Your task to perform on an android device: Open calendar and show me the fourth week of next month Image 0: 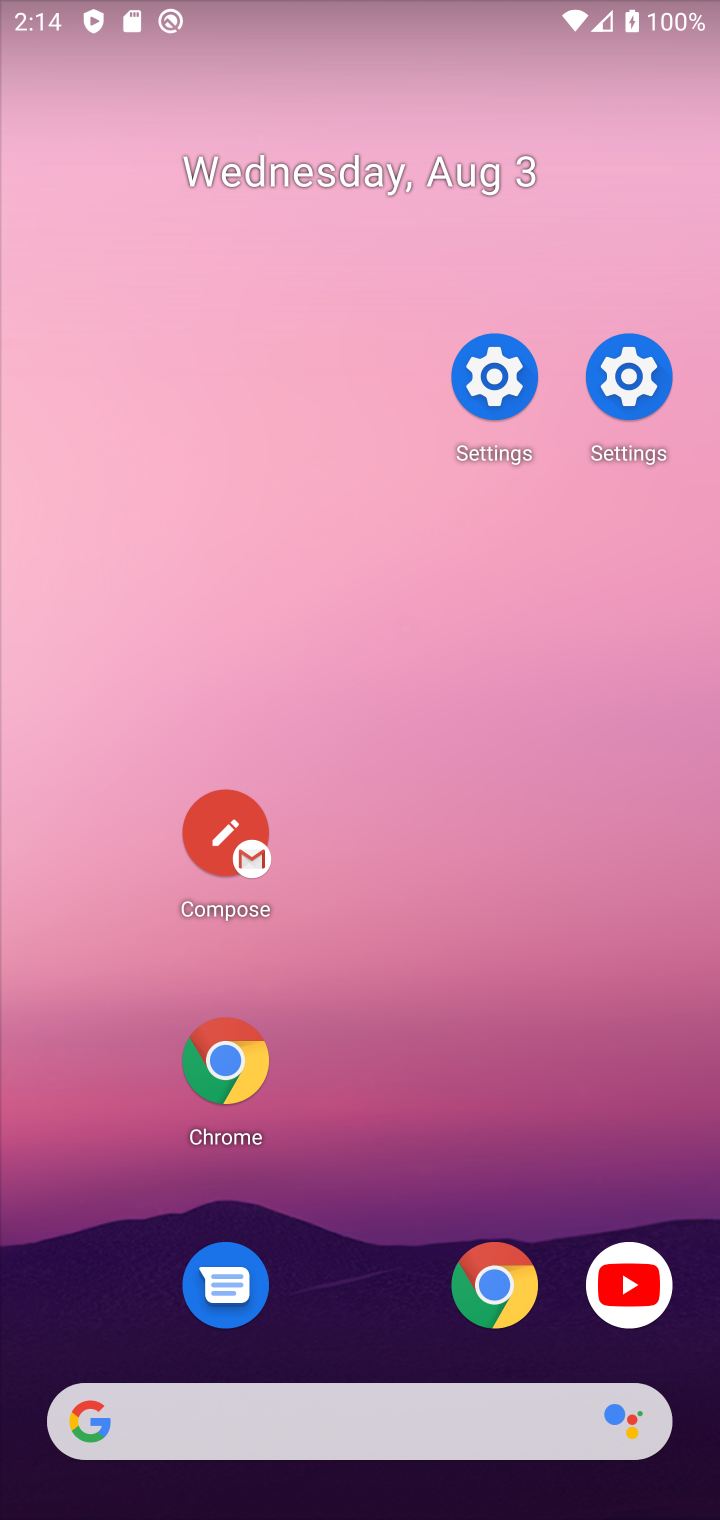
Step 0: click (328, 488)
Your task to perform on an android device: Open calendar and show me the fourth week of next month Image 1: 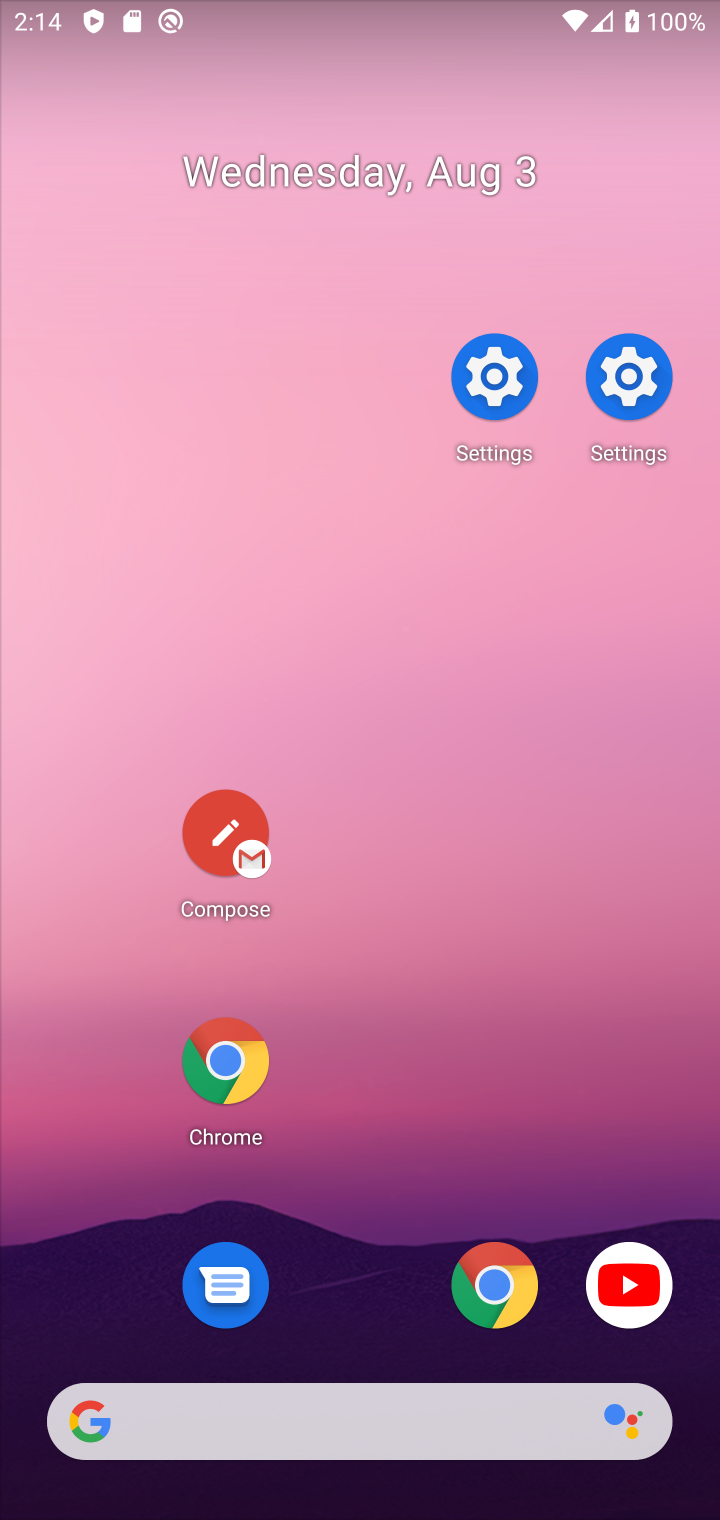
Step 1: click (309, 451)
Your task to perform on an android device: Open calendar and show me the fourth week of next month Image 2: 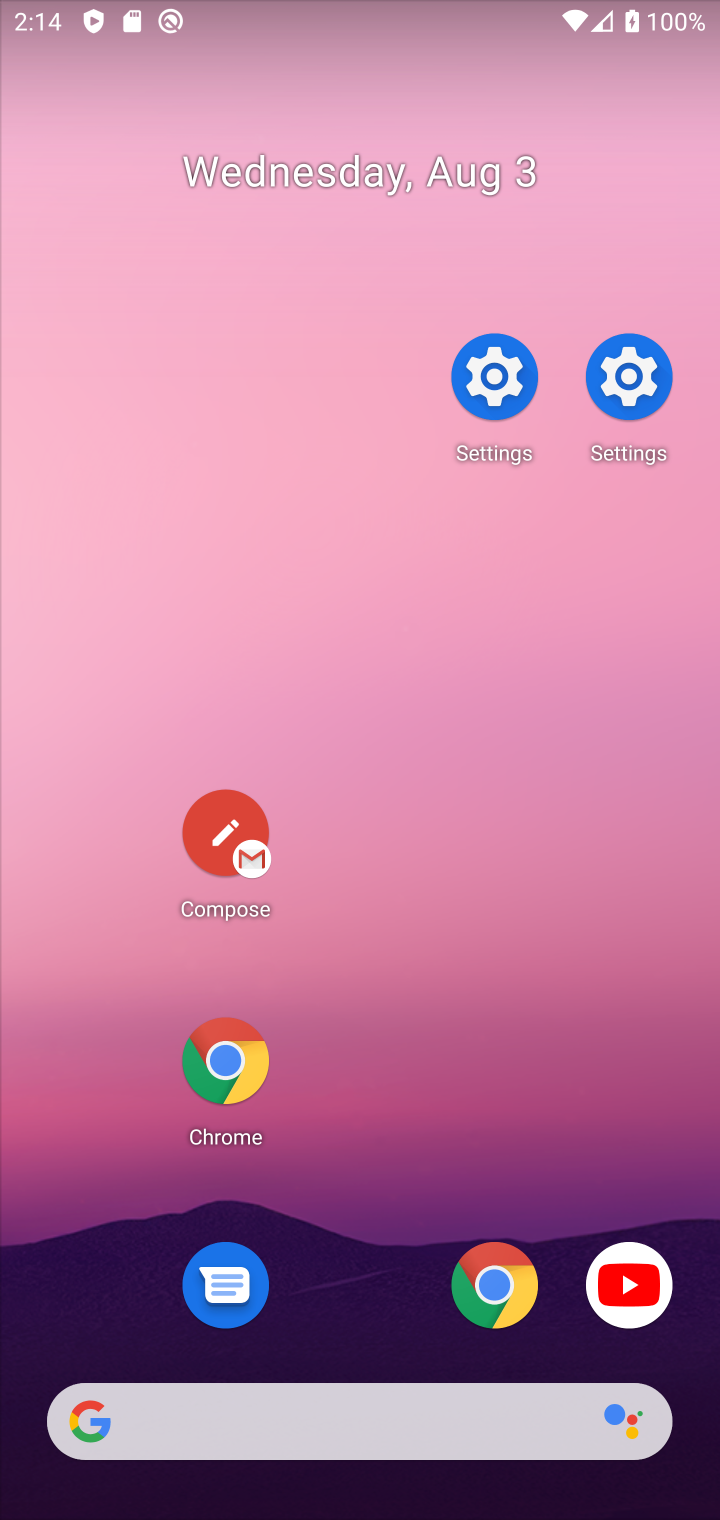
Step 2: drag from (406, 885) to (382, 39)
Your task to perform on an android device: Open calendar and show me the fourth week of next month Image 3: 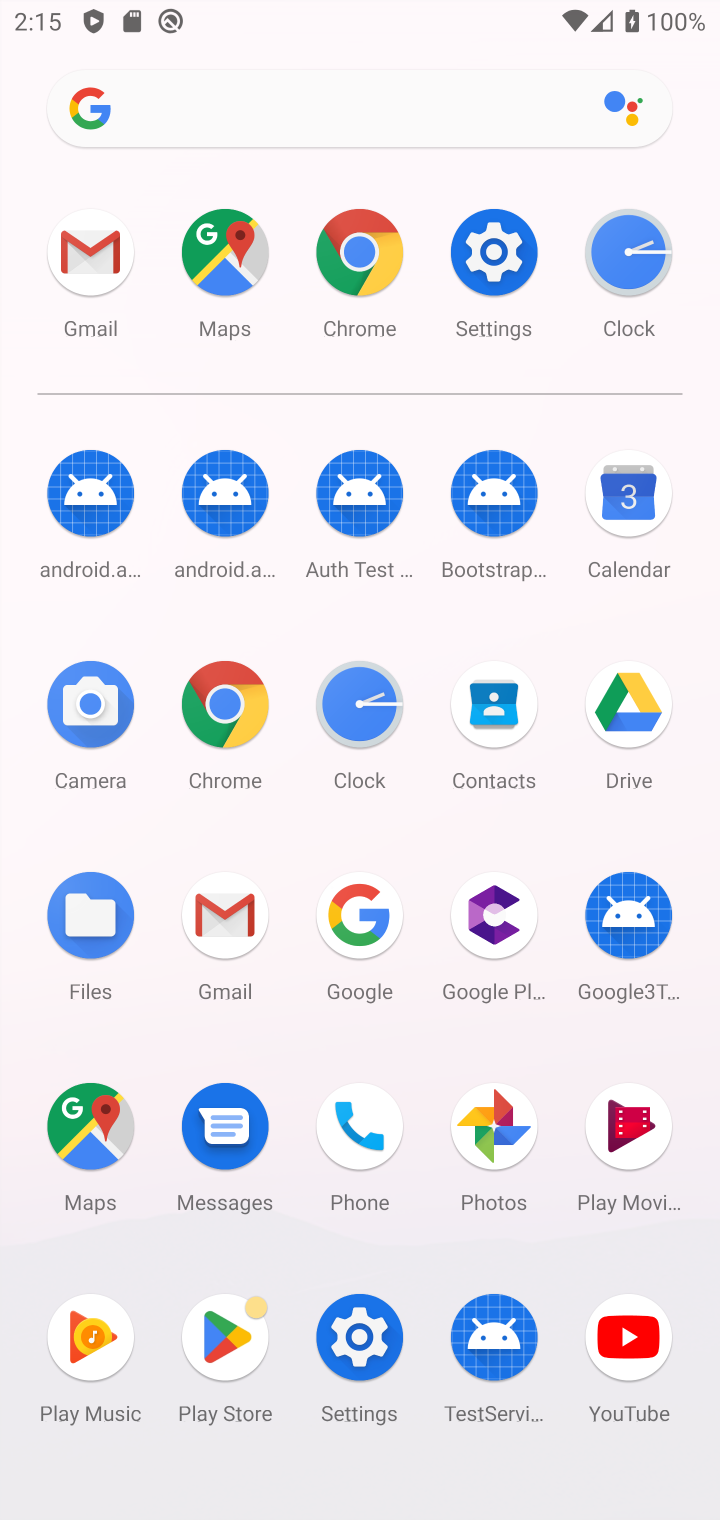
Step 3: click (639, 509)
Your task to perform on an android device: Open calendar and show me the fourth week of next month Image 4: 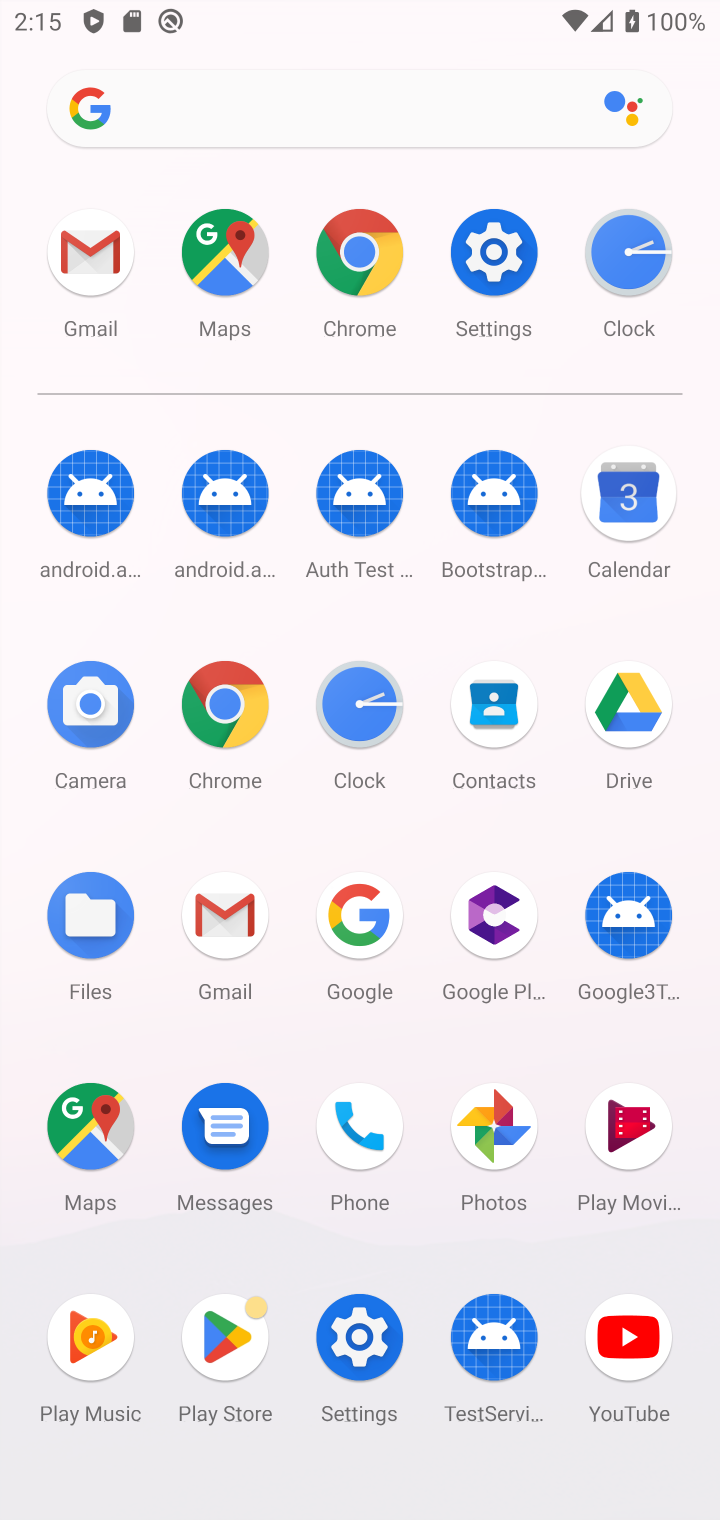
Step 4: click (627, 507)
Your task to perform on an android device: Open calendar and show me the fourth week of next month Image 5: 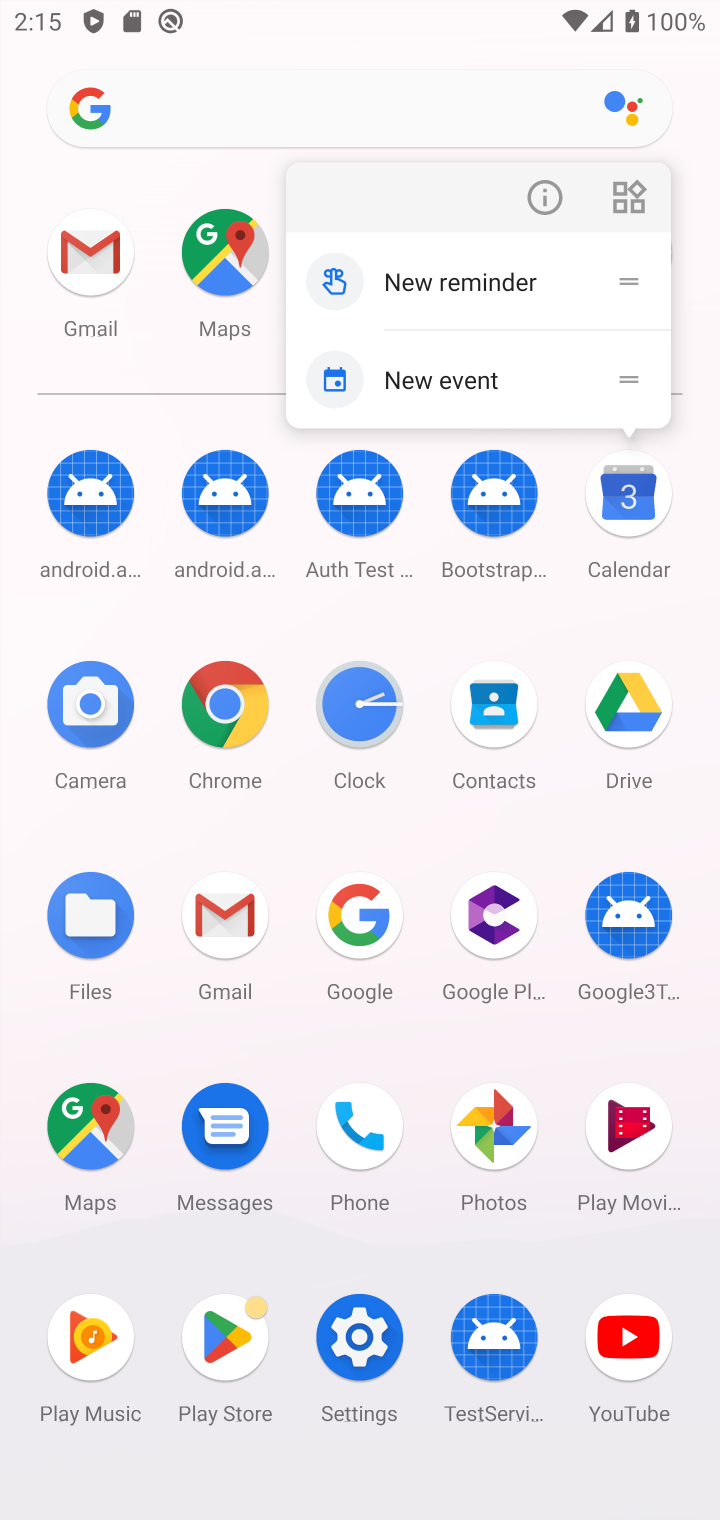
Step 5: click (625, 474)
Your task to perform on an android device: Open calendar and show me the fourth week of next month Image 6: 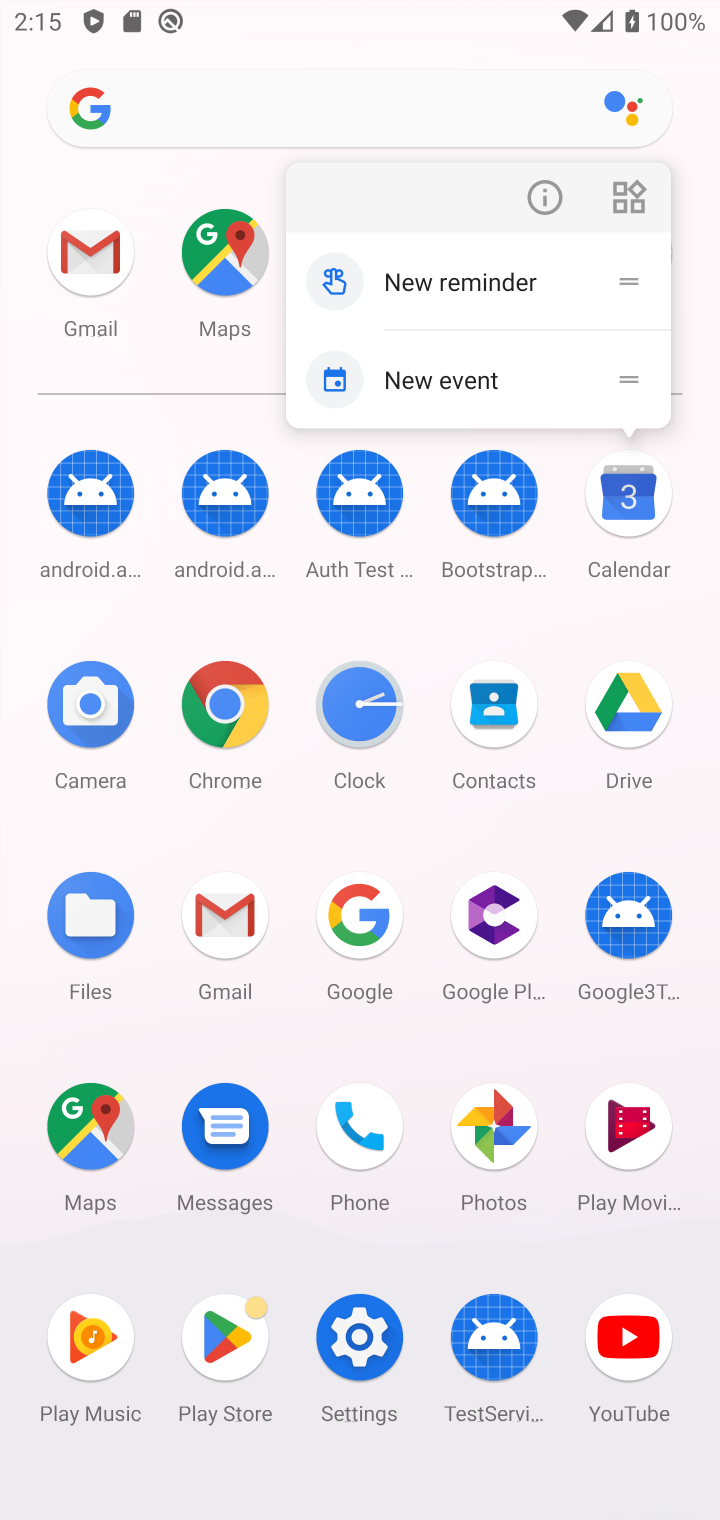
Step 6: click (619, 473)
Your task to perform on an android device: Open calendar and show me the fourth week of next month Image 7: 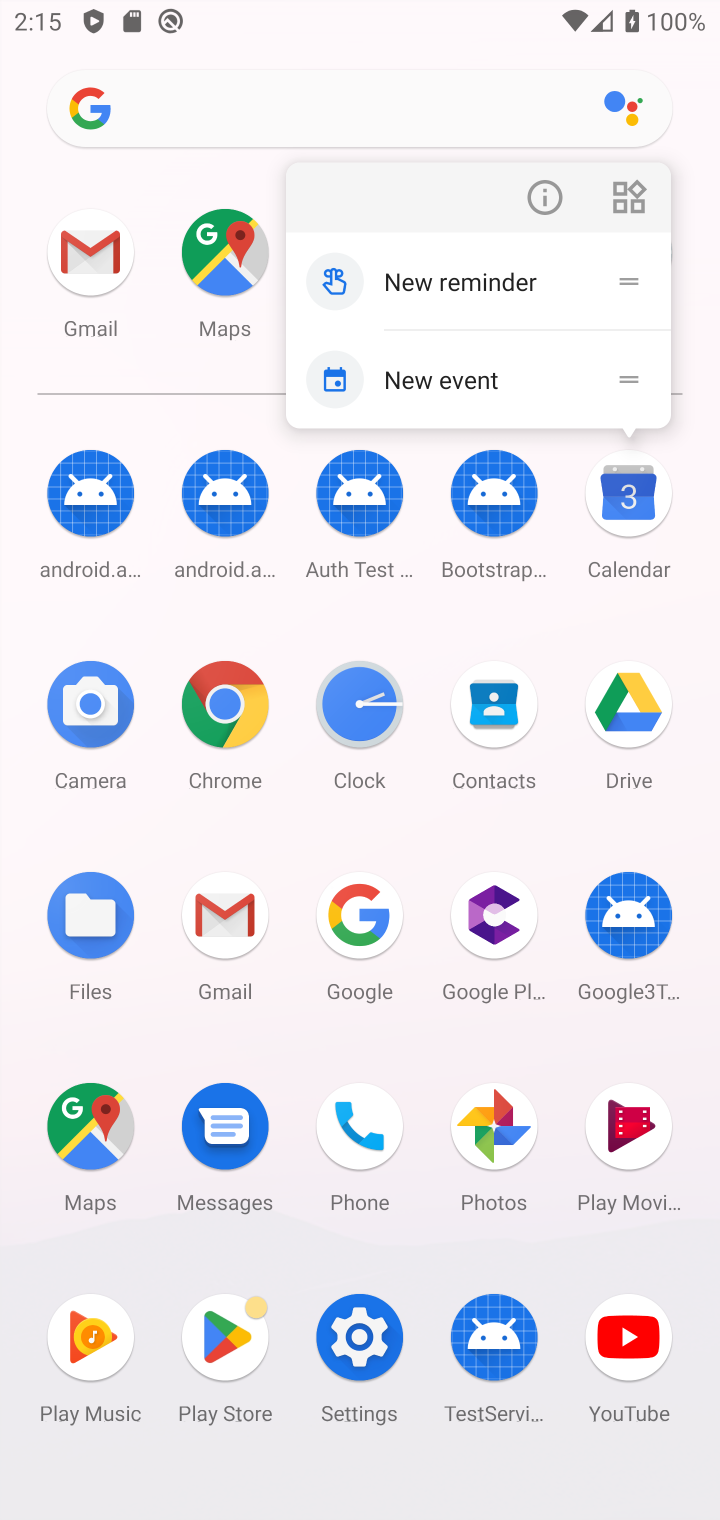
Step 7: click (639, 513)
Your task to perform on an android device: Open calendar and show me the fourth week of next month Image 8: 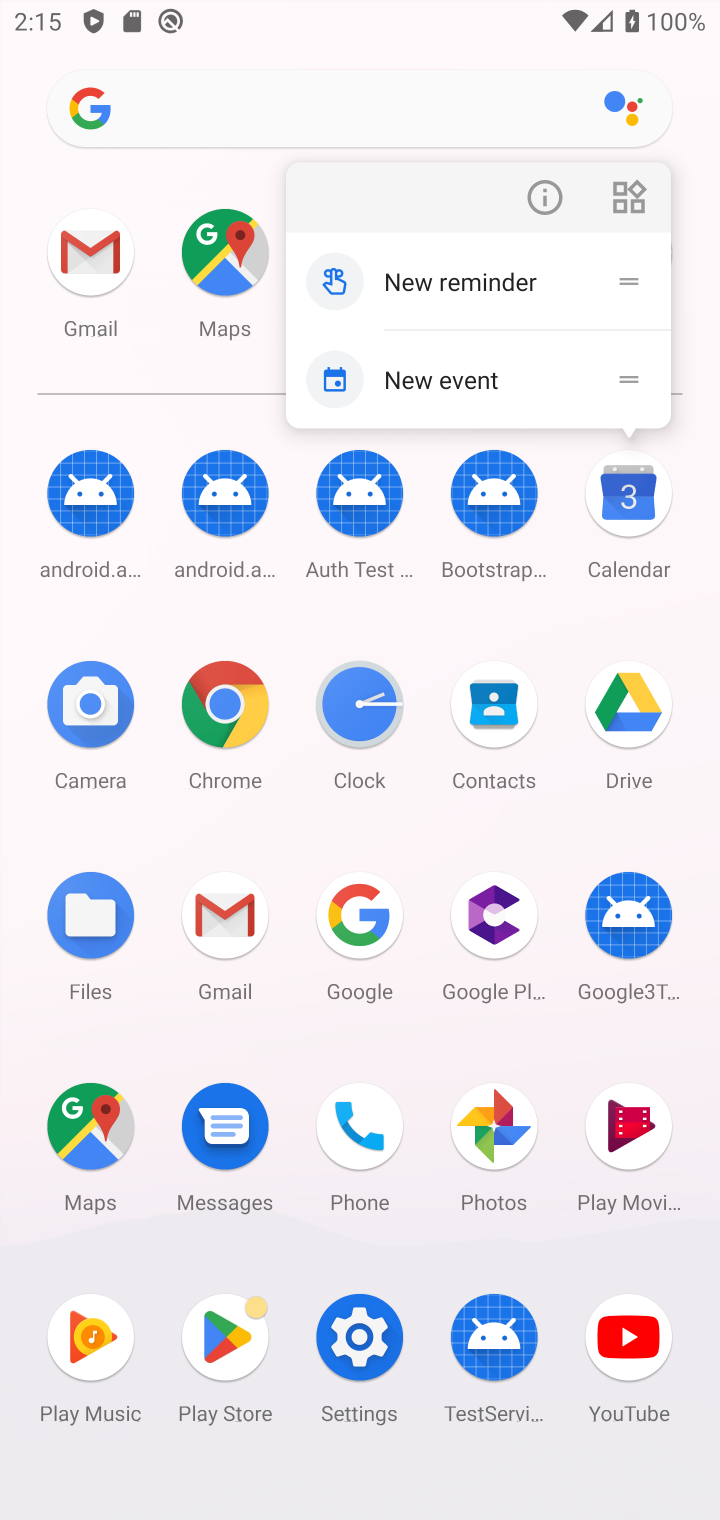
Step 8: click (636, 510)
Your task to perform on an android device: Open calendar and show me the fourth week of next month Image 9: 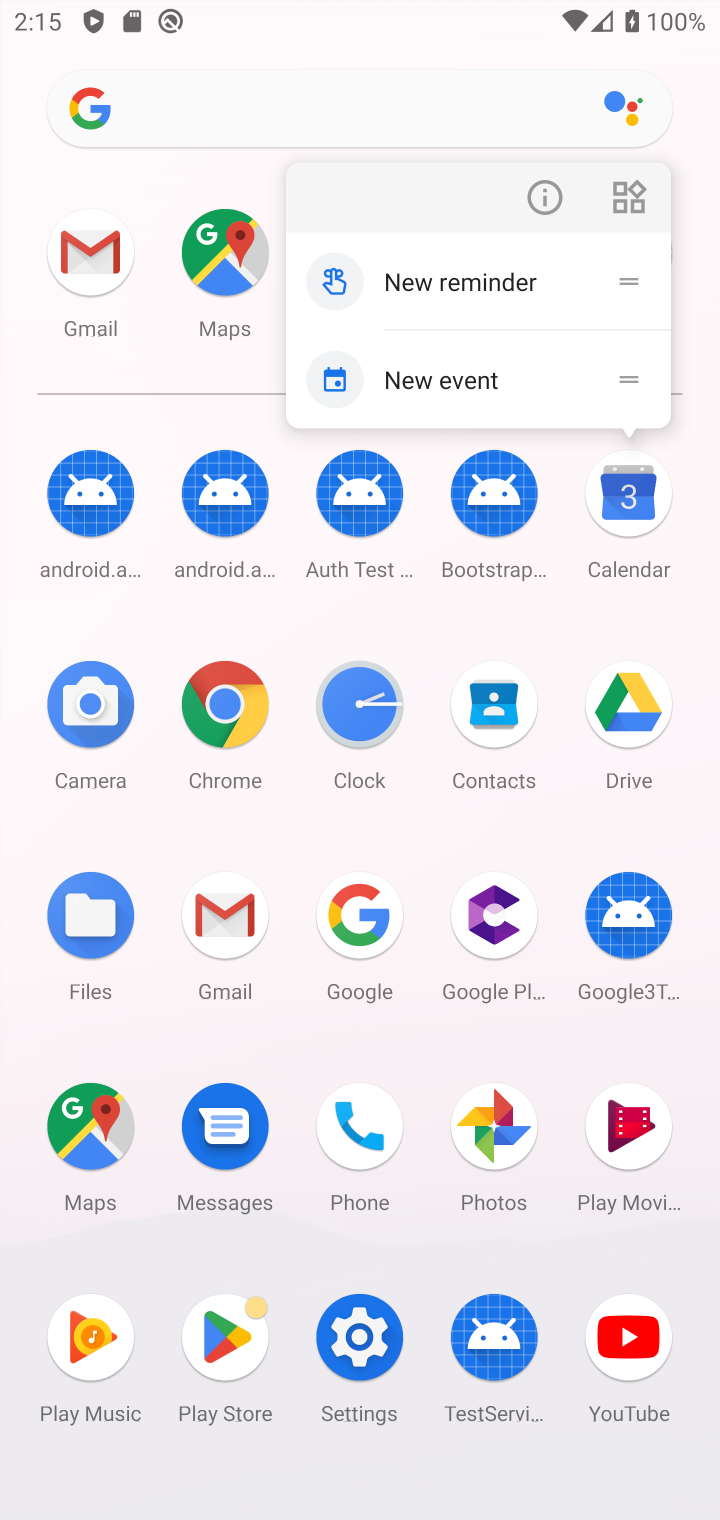
Step 9: click (642, 506)
Your task to perform on an android device: Open calendar and show me the fourth week of next month Image 10: 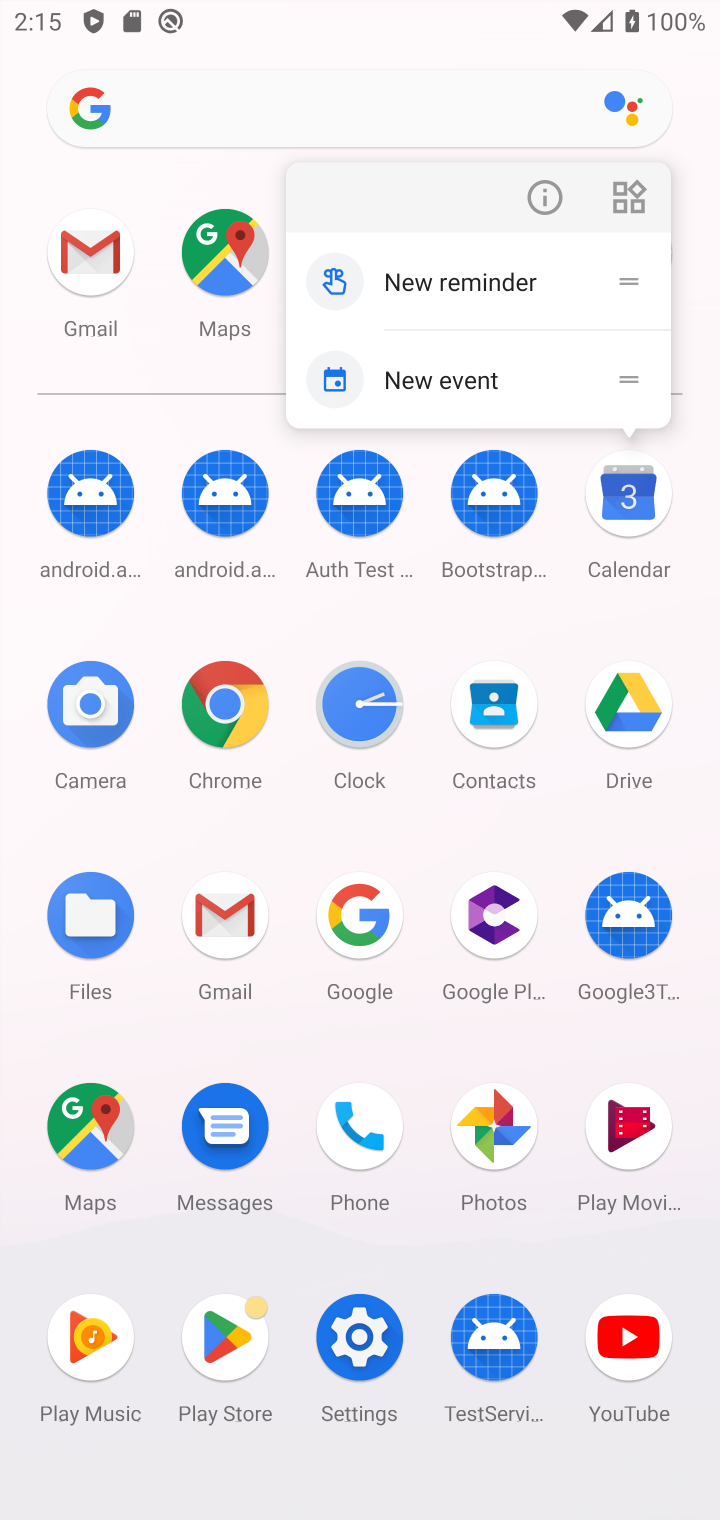
Step 10: click (630, 488)
Your task to perform on an android device: Open calendar and show me the fourth week of next month Image 11: 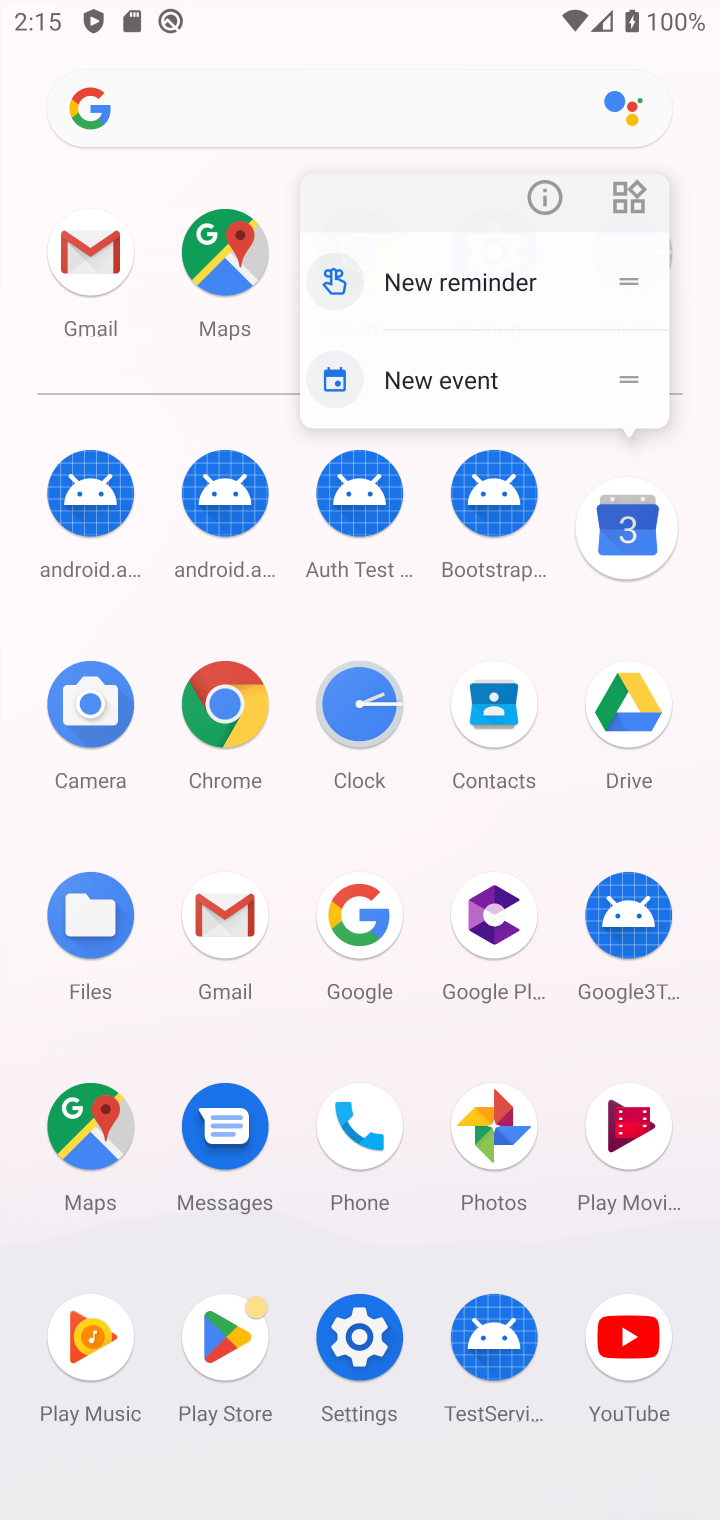
Step 11: click (491, 379)
Your task to perform on an android device: Open calendar and show me the fourth week of next month Image 12: 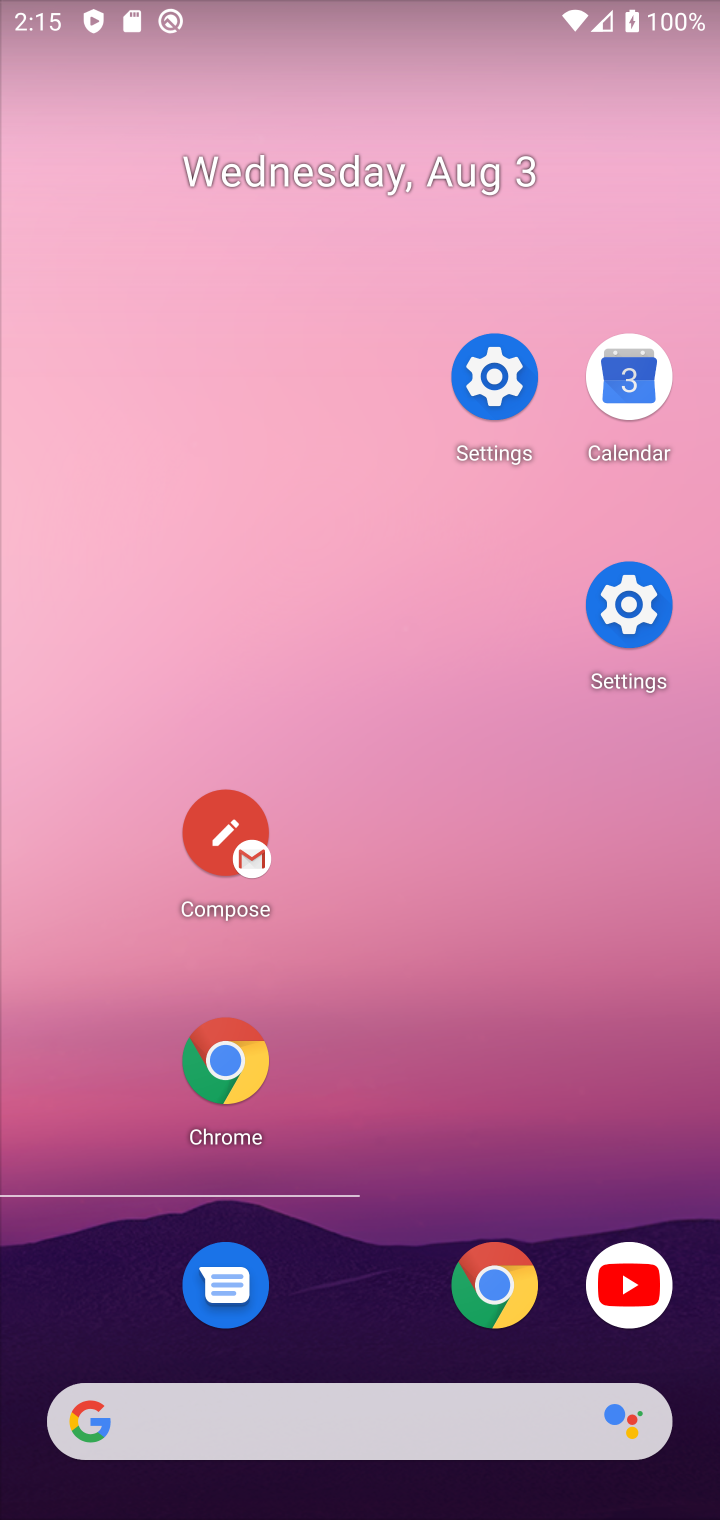
Step 12: click (618, 405)
Your task to perform on an android device: Open calendar and show me the fourth week of next month Image 13: 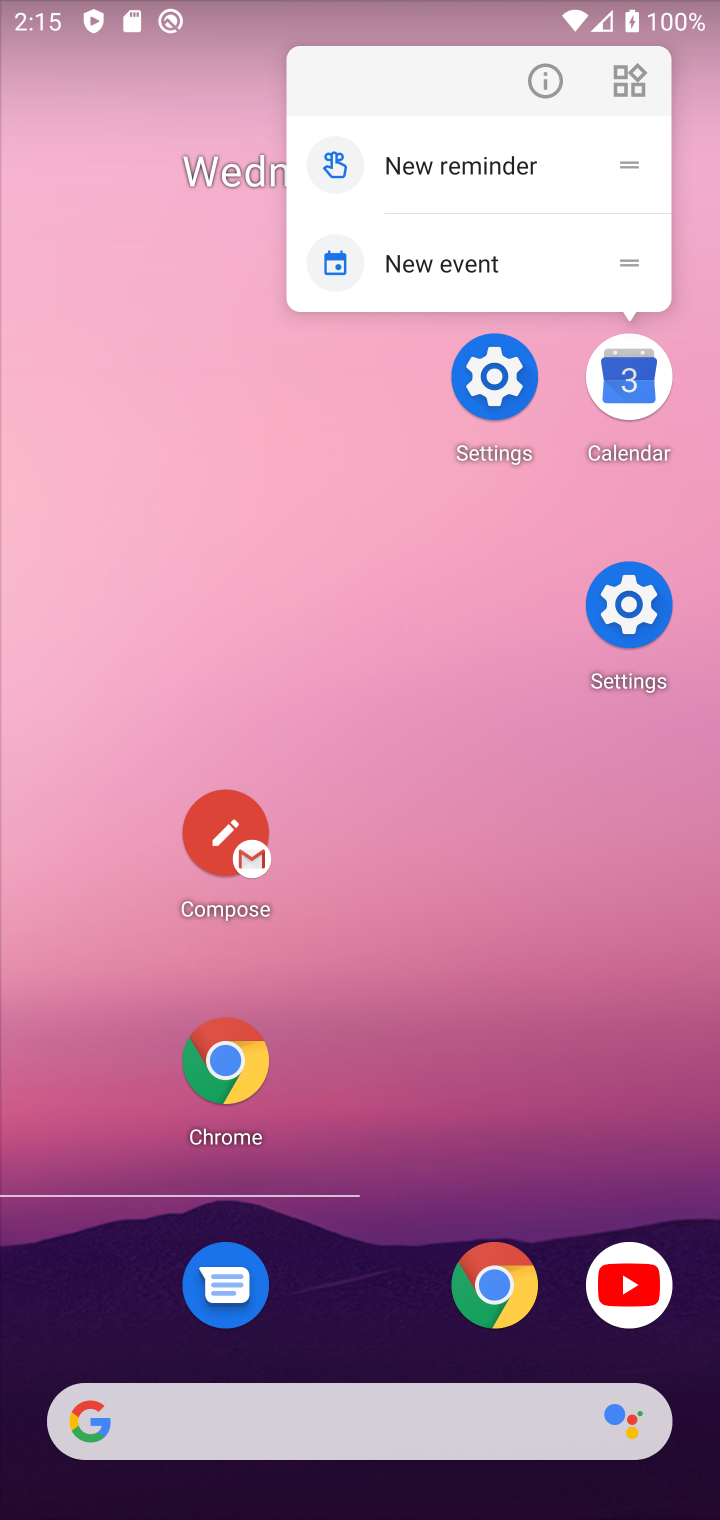
Step 13: click (442, 272)
Your task to perform on an android device: Open calendar and show me the fourth week of next month Image 14: 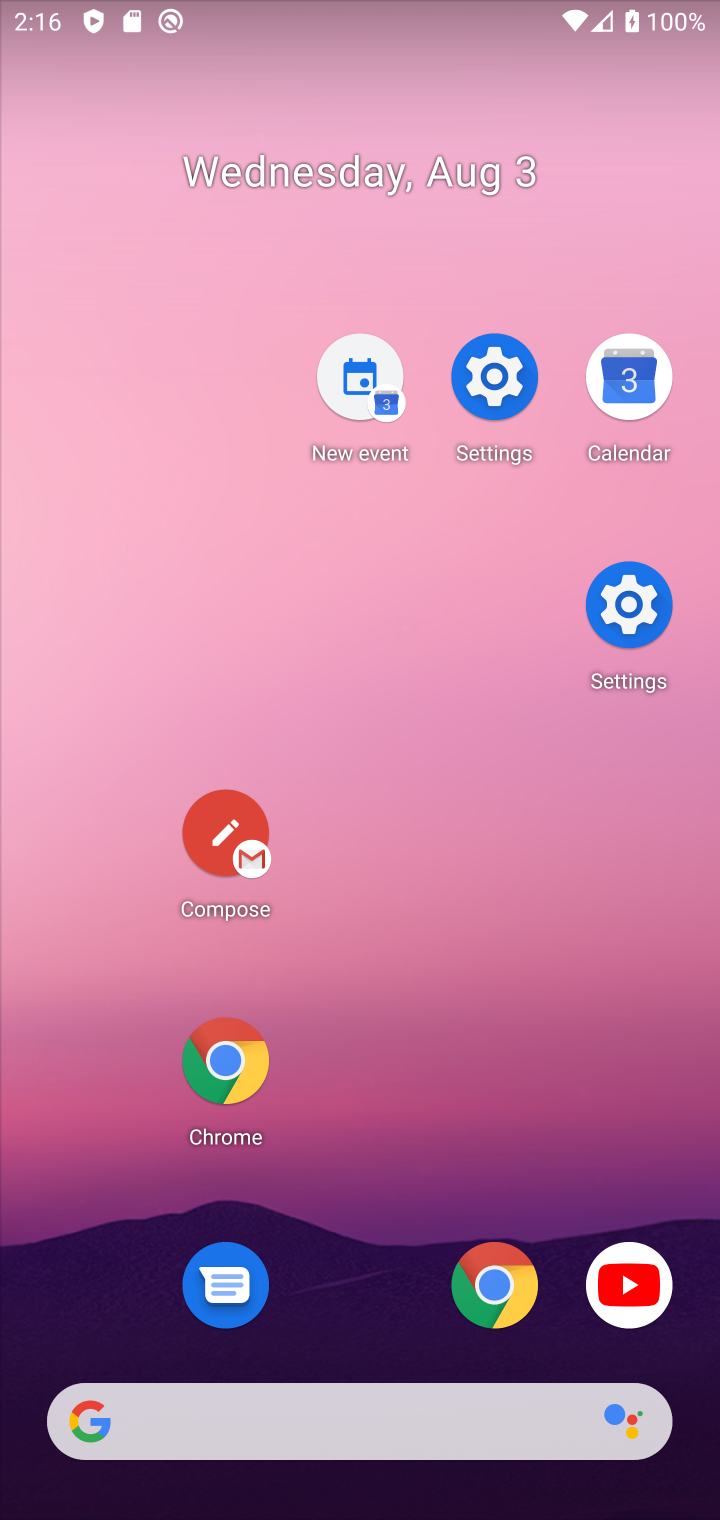
Step 14: click (650, 371)
Your task to perform on an android device: Open calendar and show me the fourth week of next month Image 15: 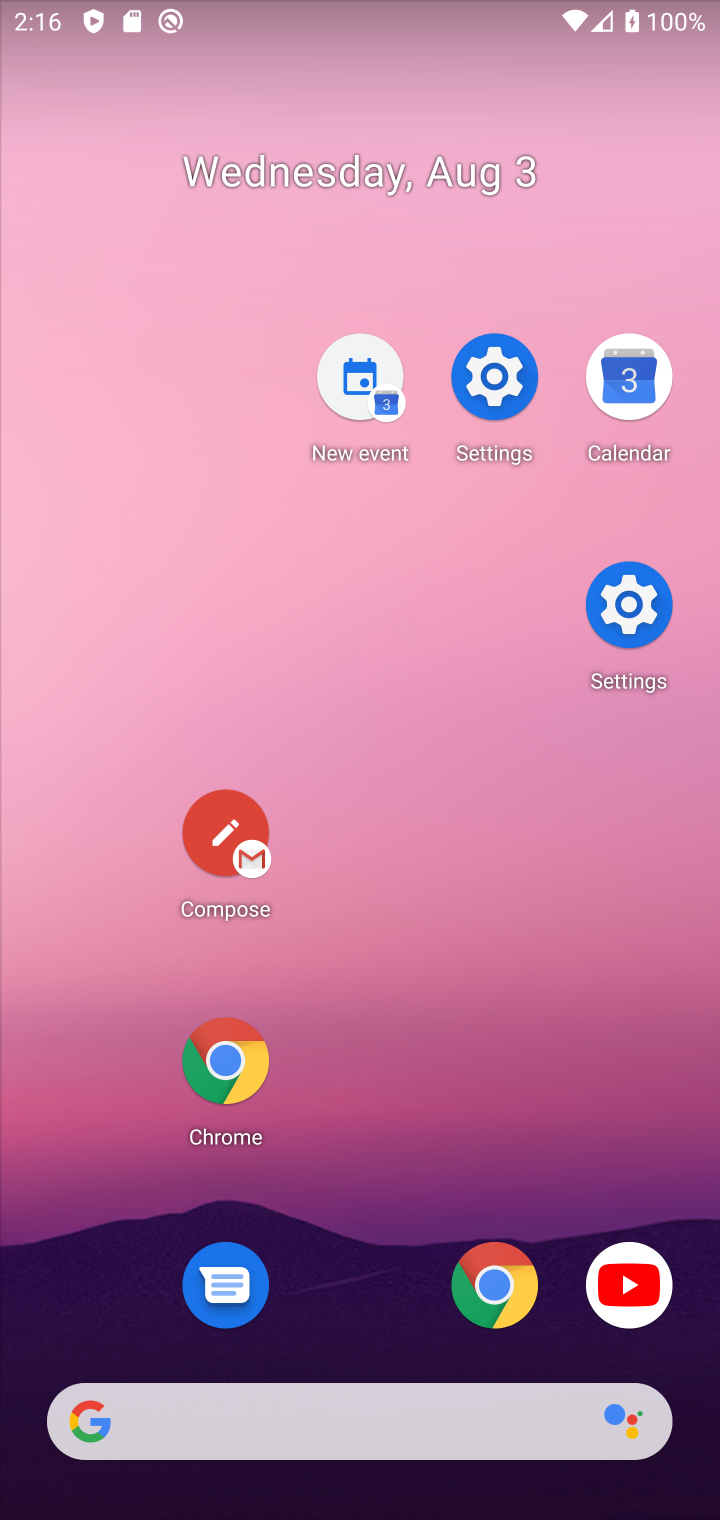
Step 15: click (630, 367)
Your task to perform on an android device: Open calendar and show me the fourth week of next month Image 16: 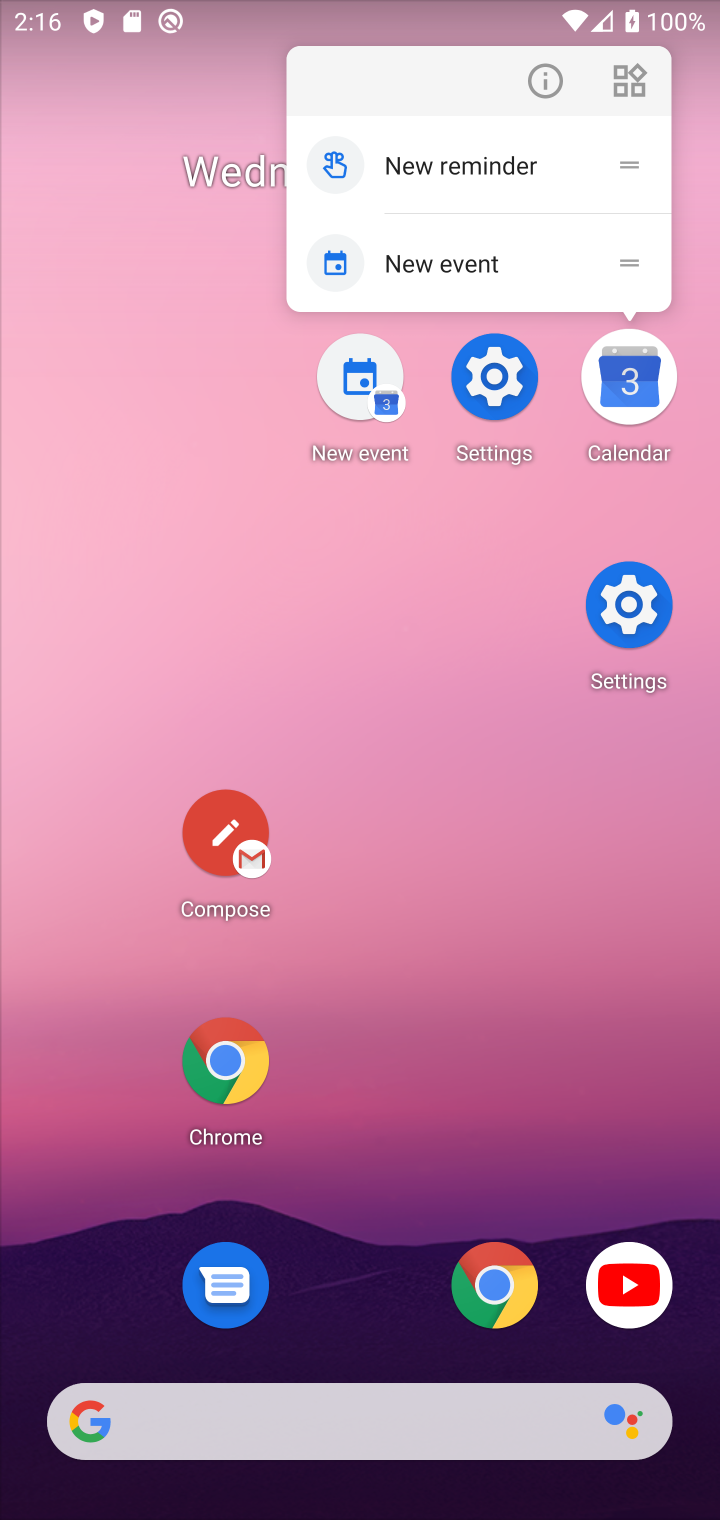
Step 16: click (630, 367)
Your task to perform on an android device: Open calendar and show me the fourth week of next month Image 17: 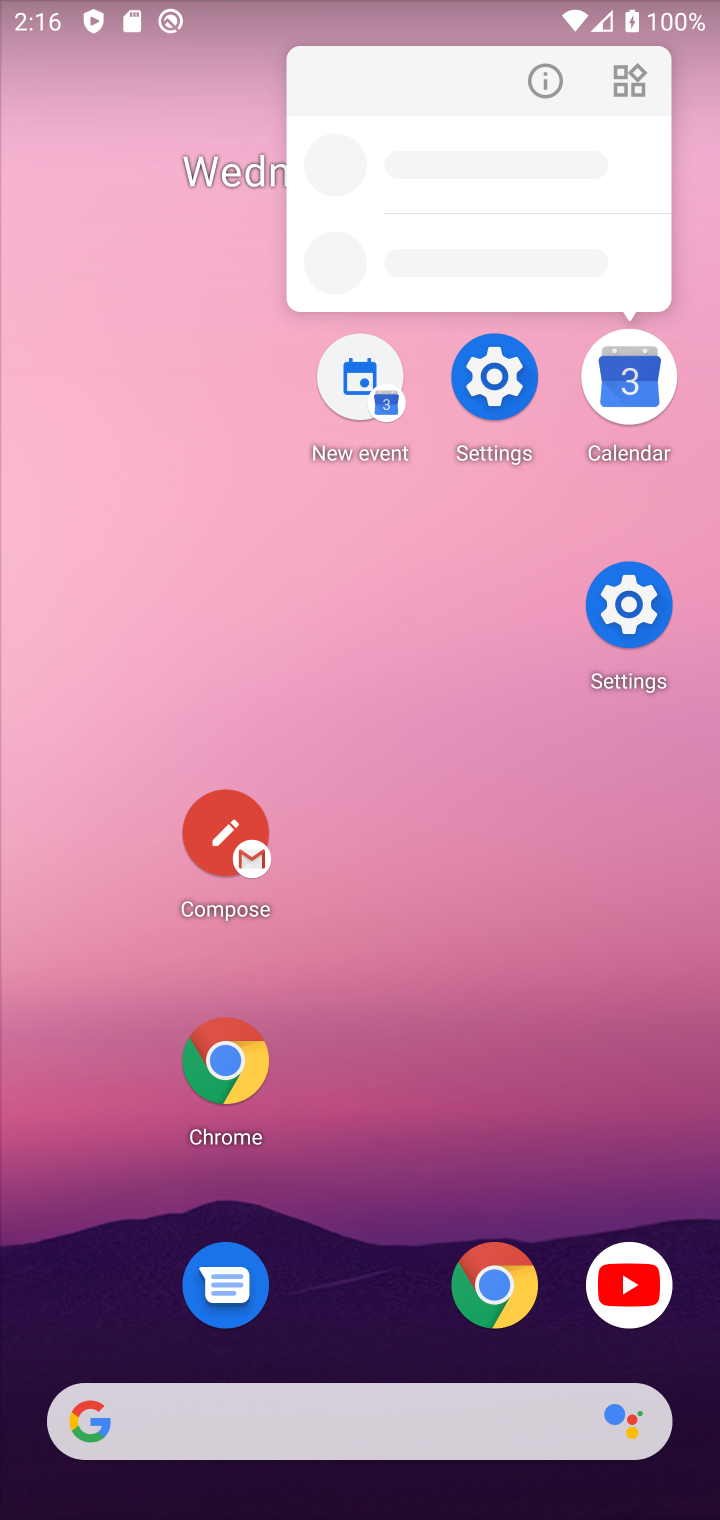
Step 17: click (458, 279)
Your task to perform on an android device: Open calendar and show me the fourth week of next month Image 18: 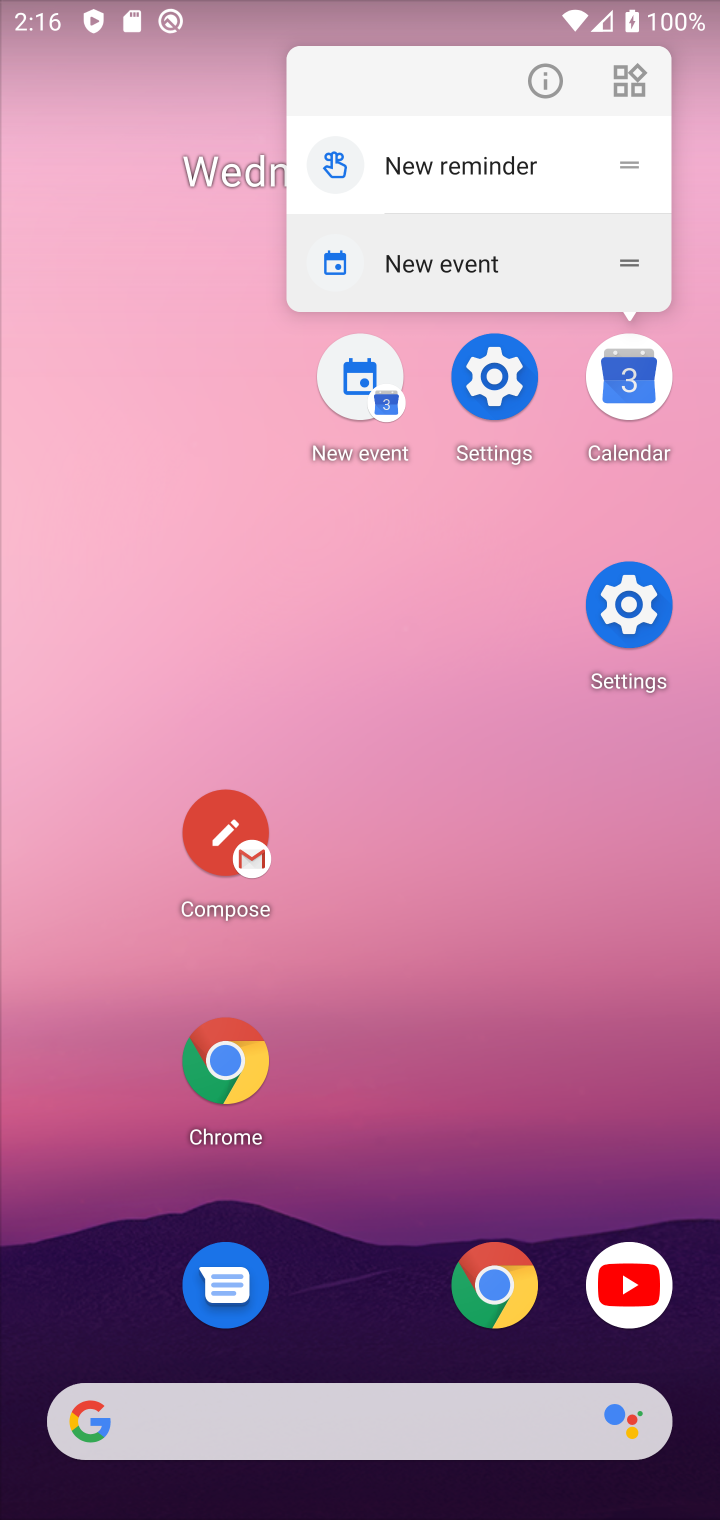
Step 18: click (425, 281)
Your task to perform on an android device: Open calendar and show me the fourth week of next month Image 19: 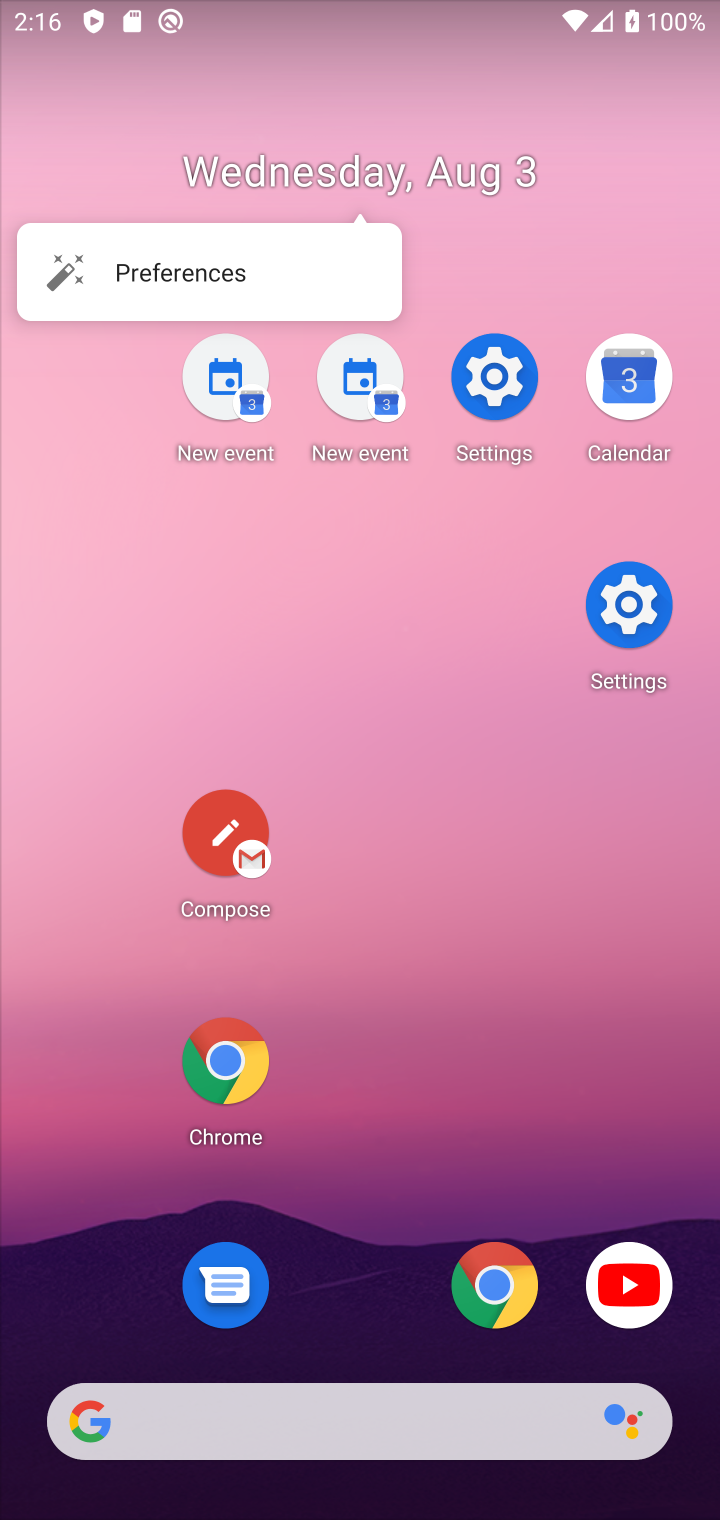
Step 19: drag from (393, 723) to (262, 111)
Your task to perform on an android device: Open calendar and show me the fourth week of next month Image 20: 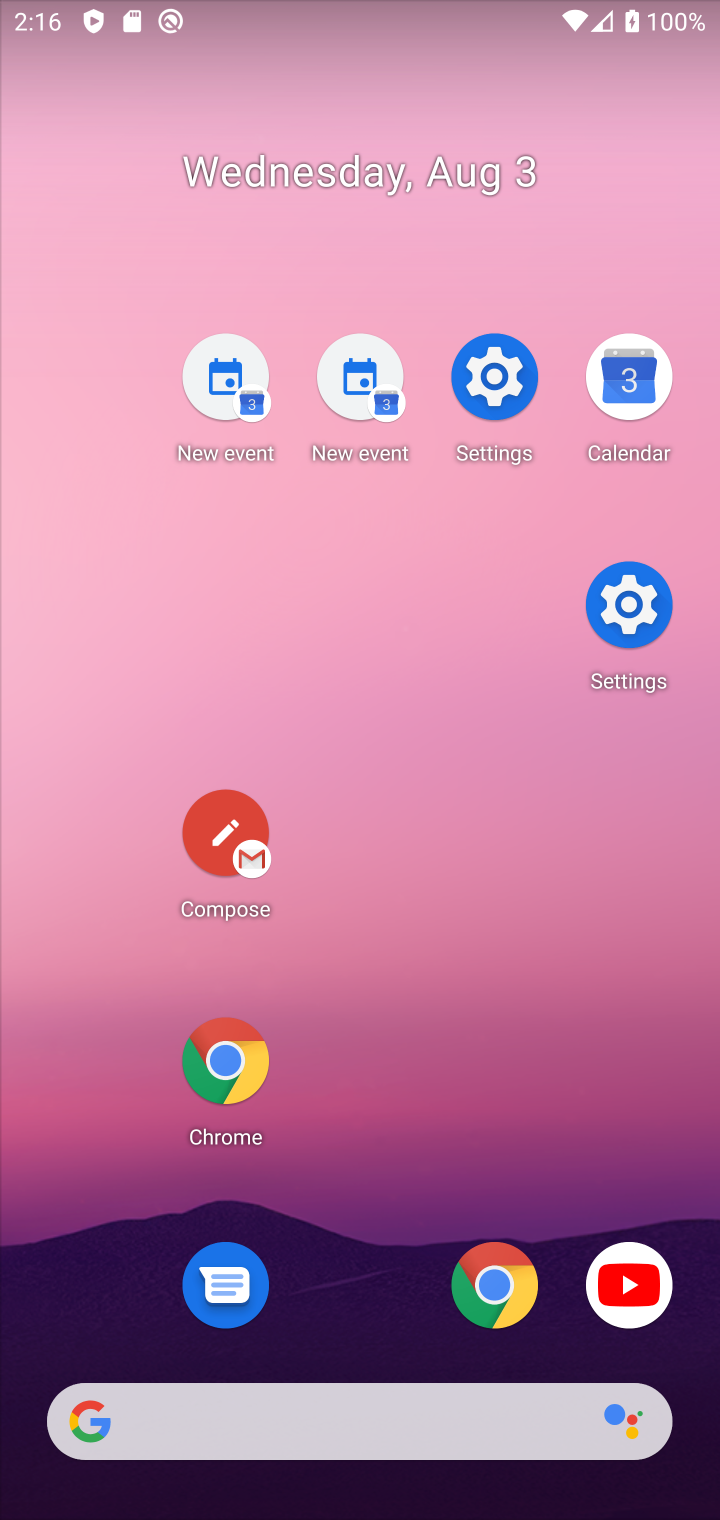
Step 20: drag from (429, 918) to (303, 261)
Your task to perform on an android device: Open calendar and show me the fourth week of next month Image 21: 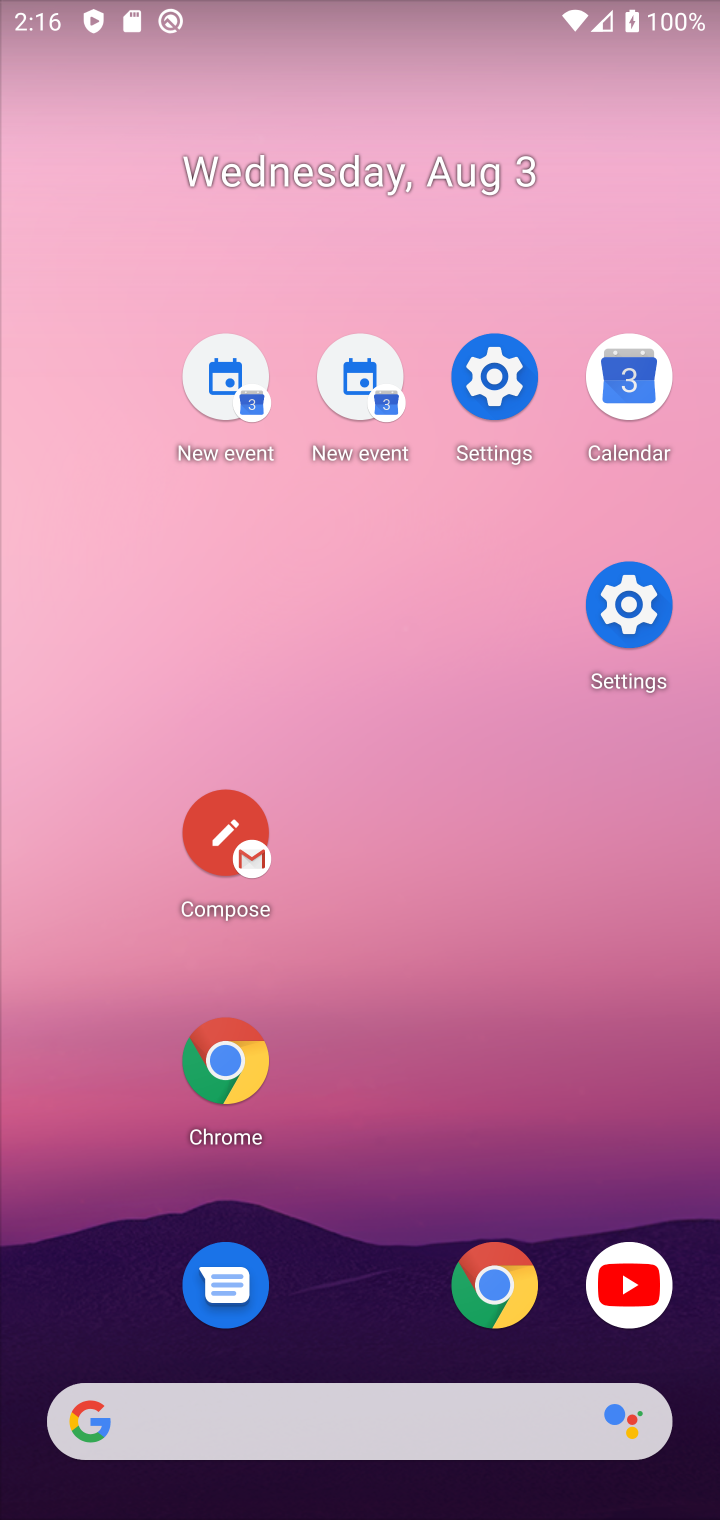
Step 21: drag from (574, 304) to (622, 401)
Your task to perform on an android device: Open calendar and show me the fourth week of next month Image 22: 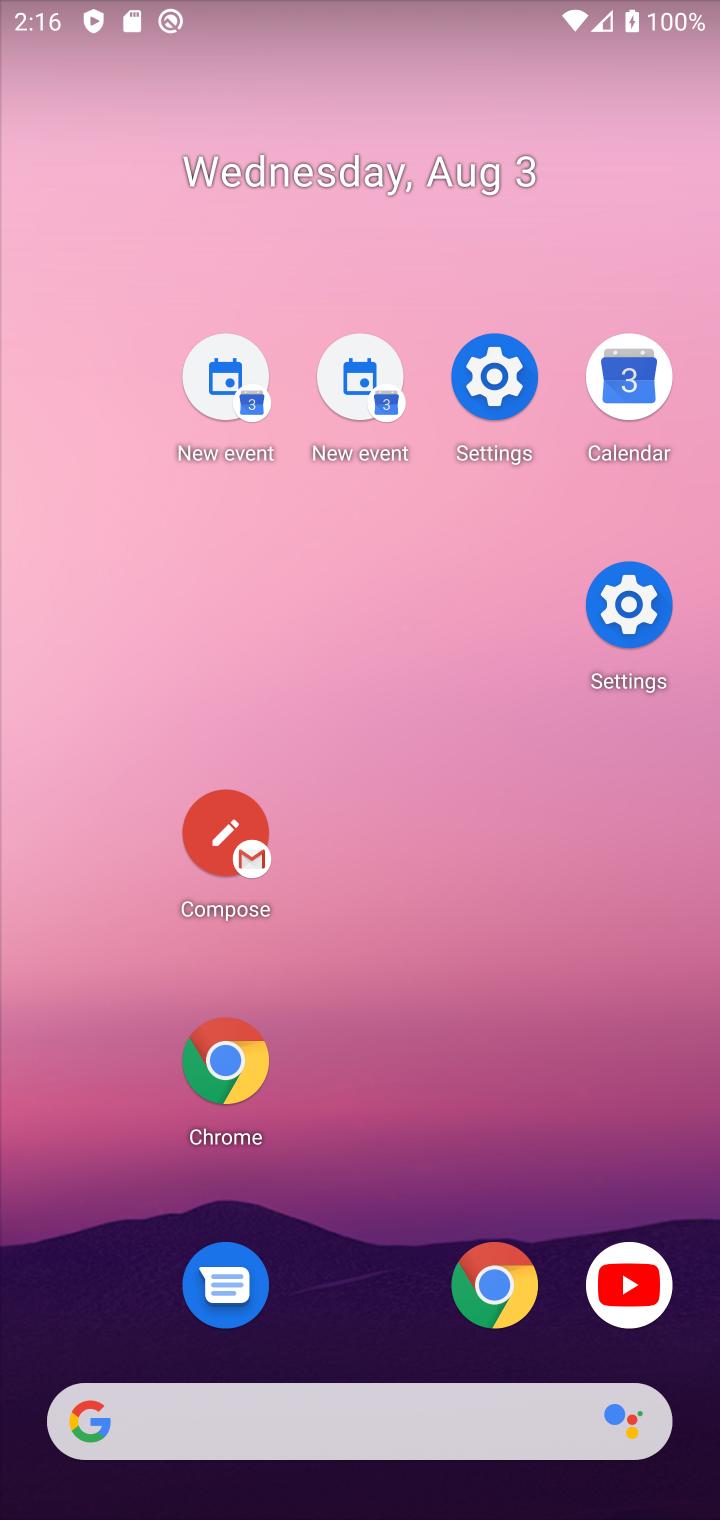
Step 22: click (649, 626)
Your task to perform on an android device: Open calendar and show me the fourth week of next month Image 23: 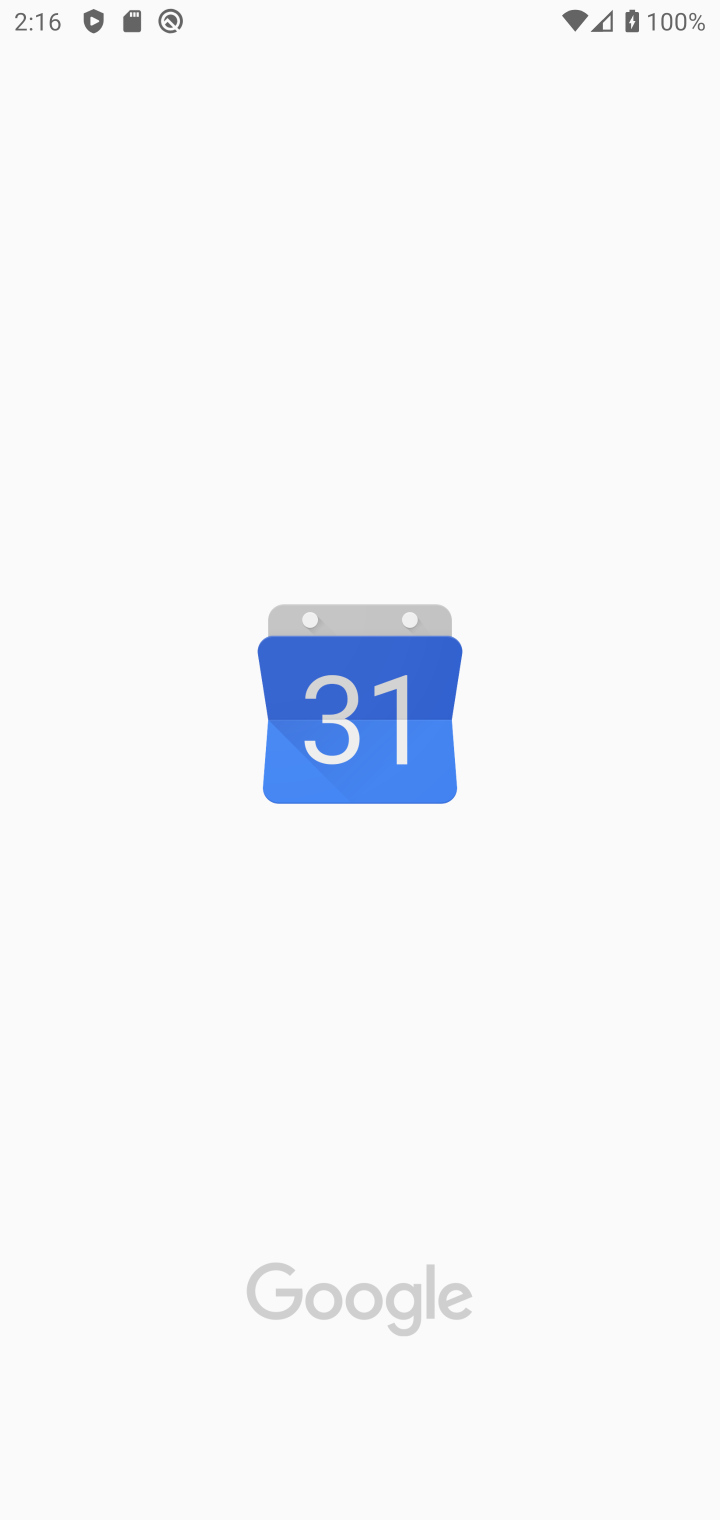
Step 23: click (621, 374)
Your task to perform on an android device: Open calendar and show me the fourth week of next month Image 24: 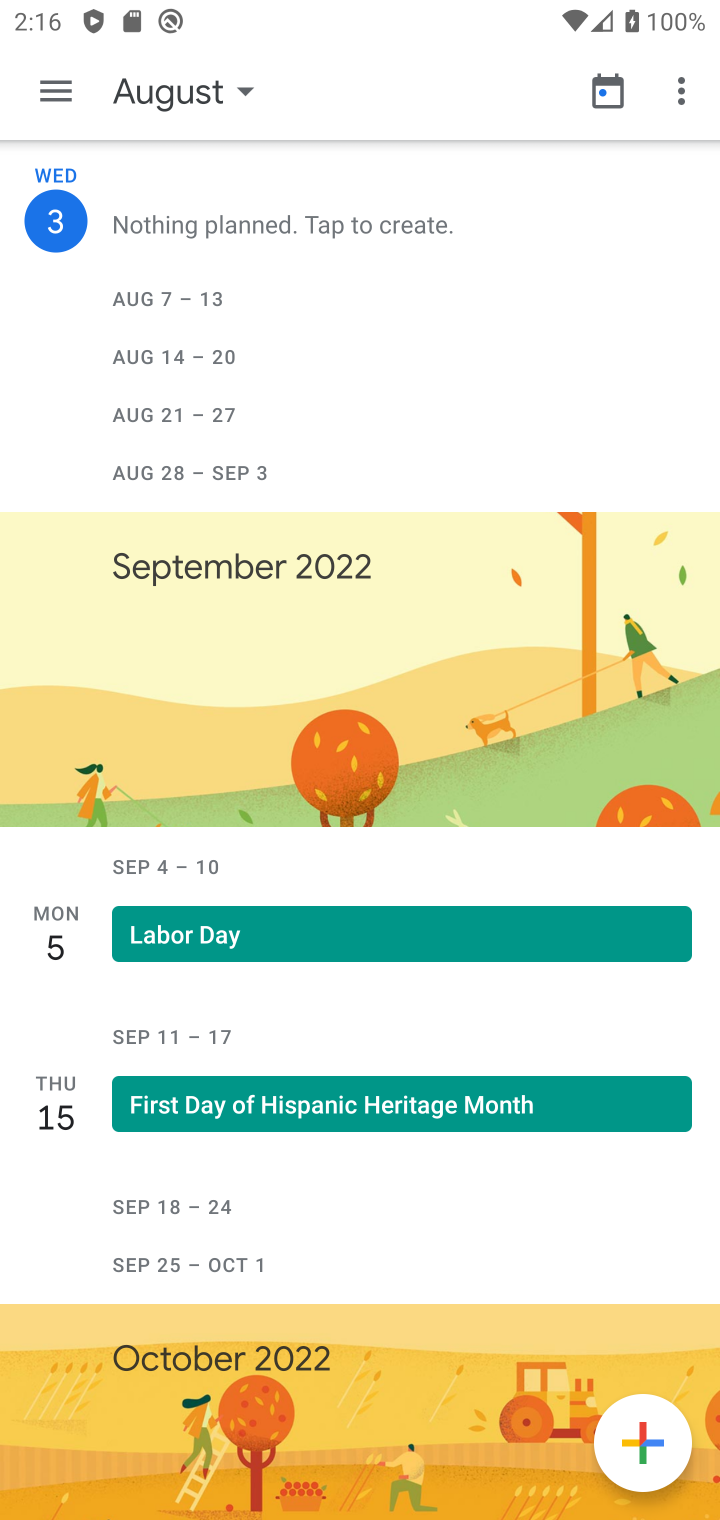
Step 24: click (225, 89)
Your task to perform on an android device: Open calendar and show me the fourth week of next month Image 25: 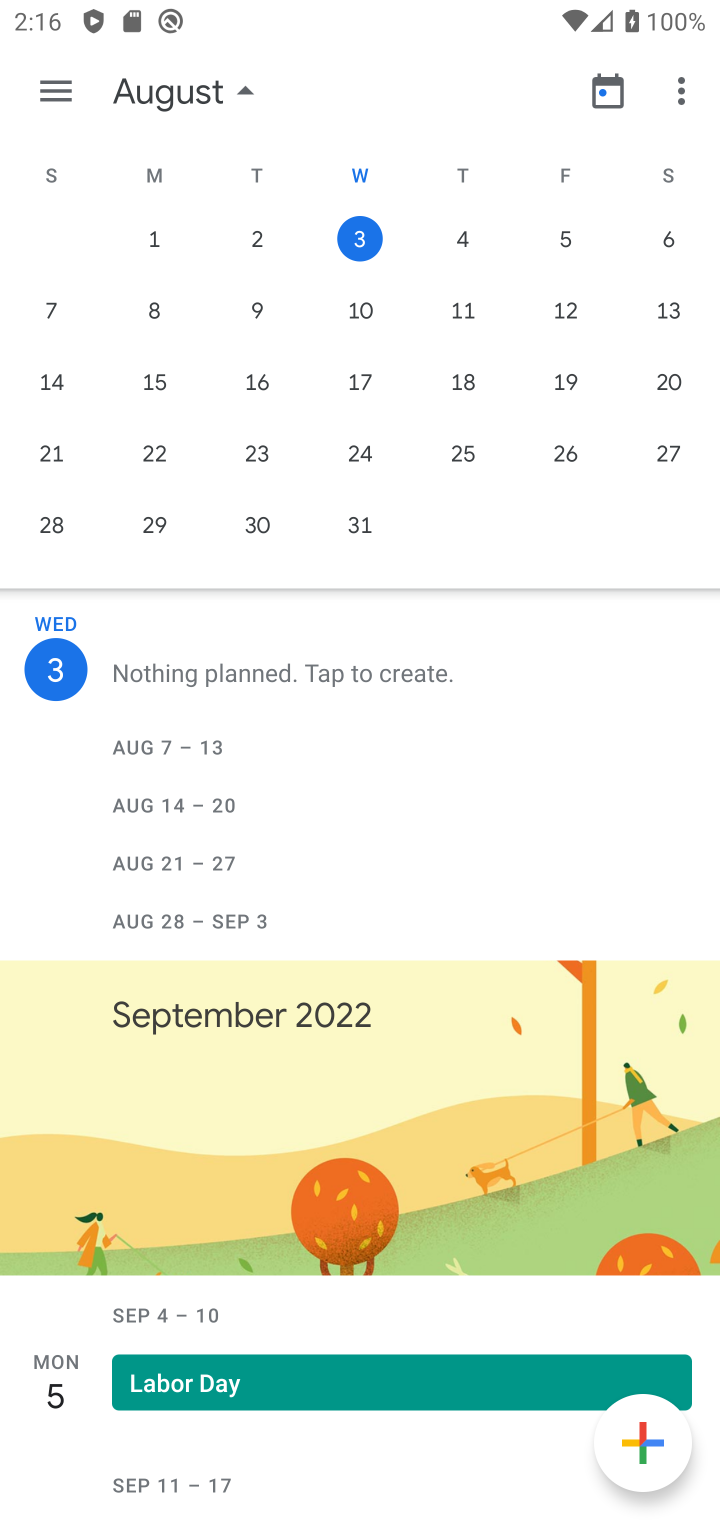
Step 25: drag from (510, 288) to (59, 451)
Your task to perform on an android device: Open calendar and show me the fourth week of next month Image 26: 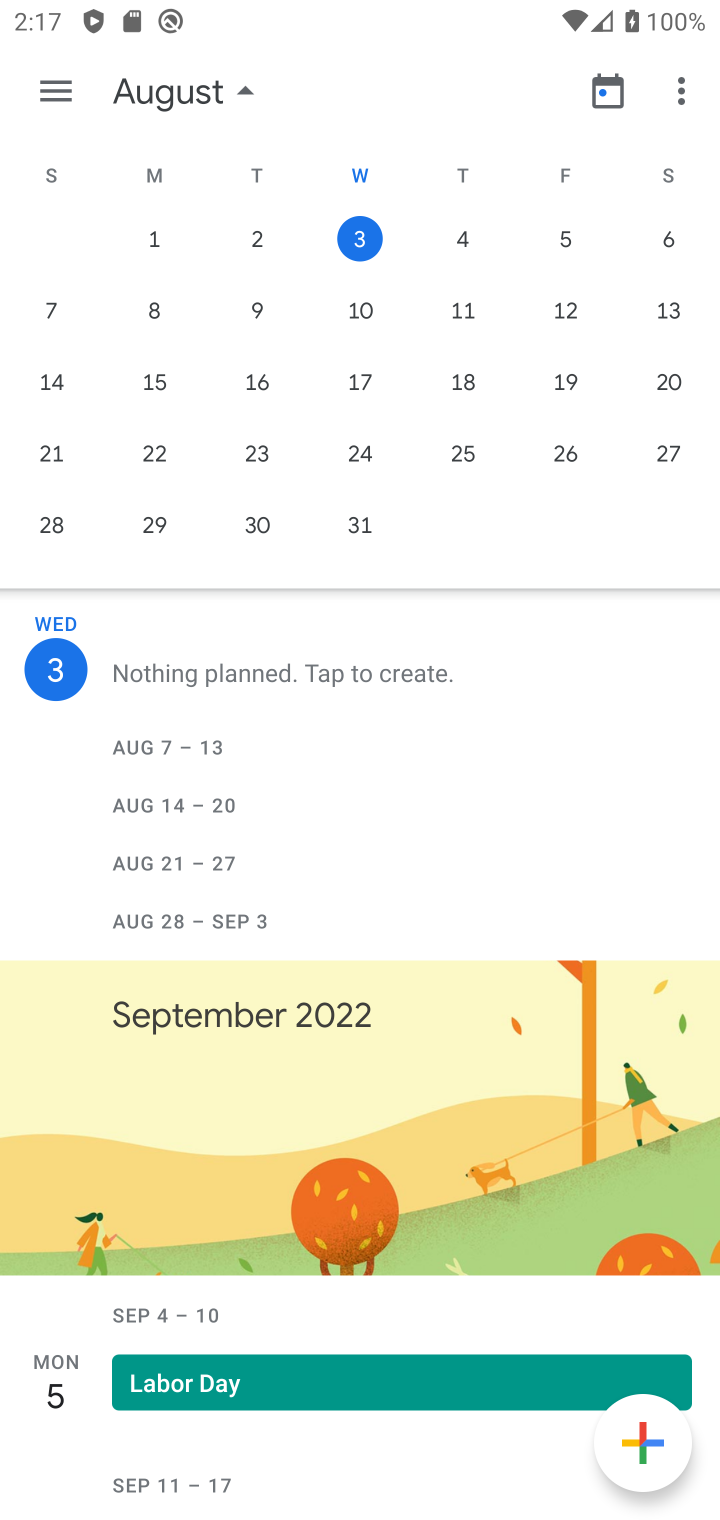
Step 26: drag from (370, 438) to (20, 348)
Your task to perform on an android device: Open calendar and show me the fourth week of next month Image 27: 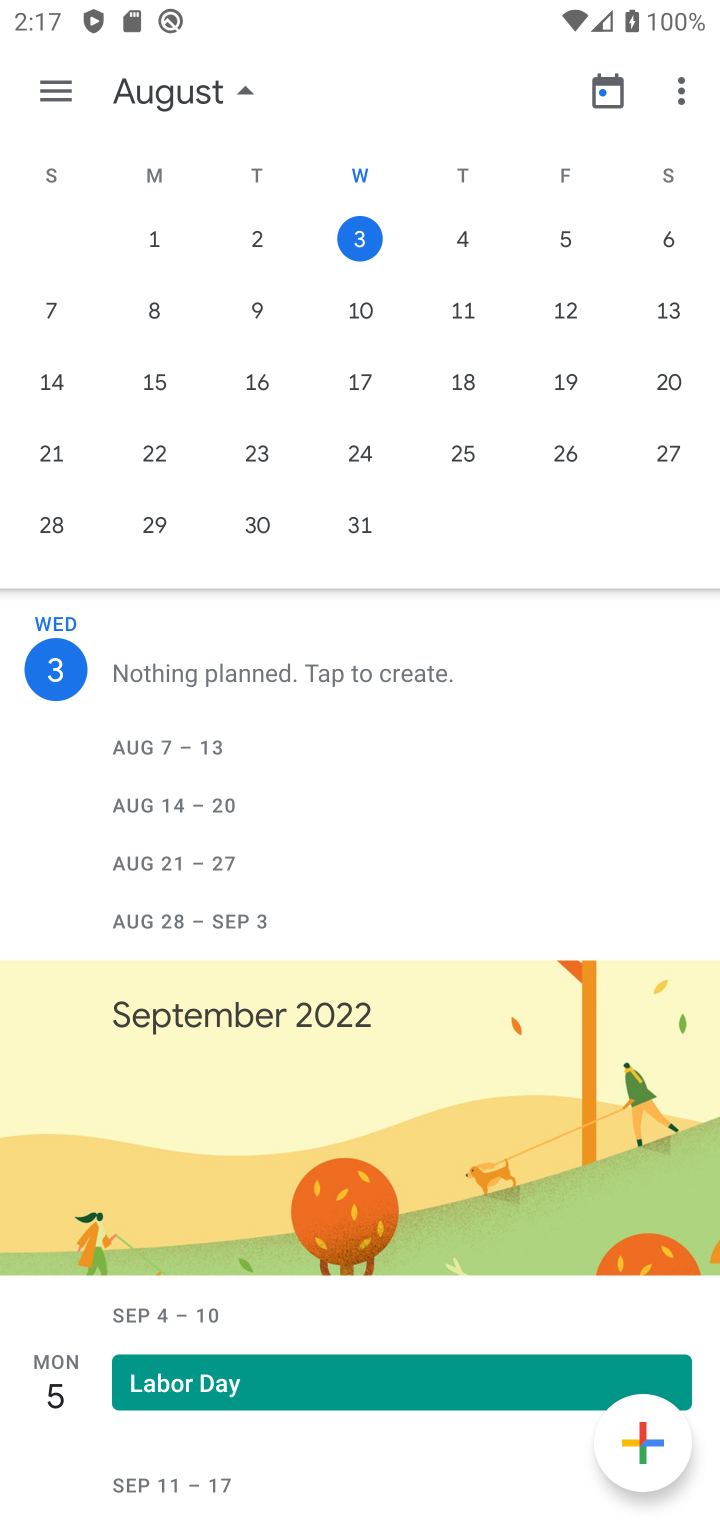
Step 27: drag from (428, 439) to (16, 436)
Your task to perform on an android device: Open calendar and show me the fourth week of next month Image 28: 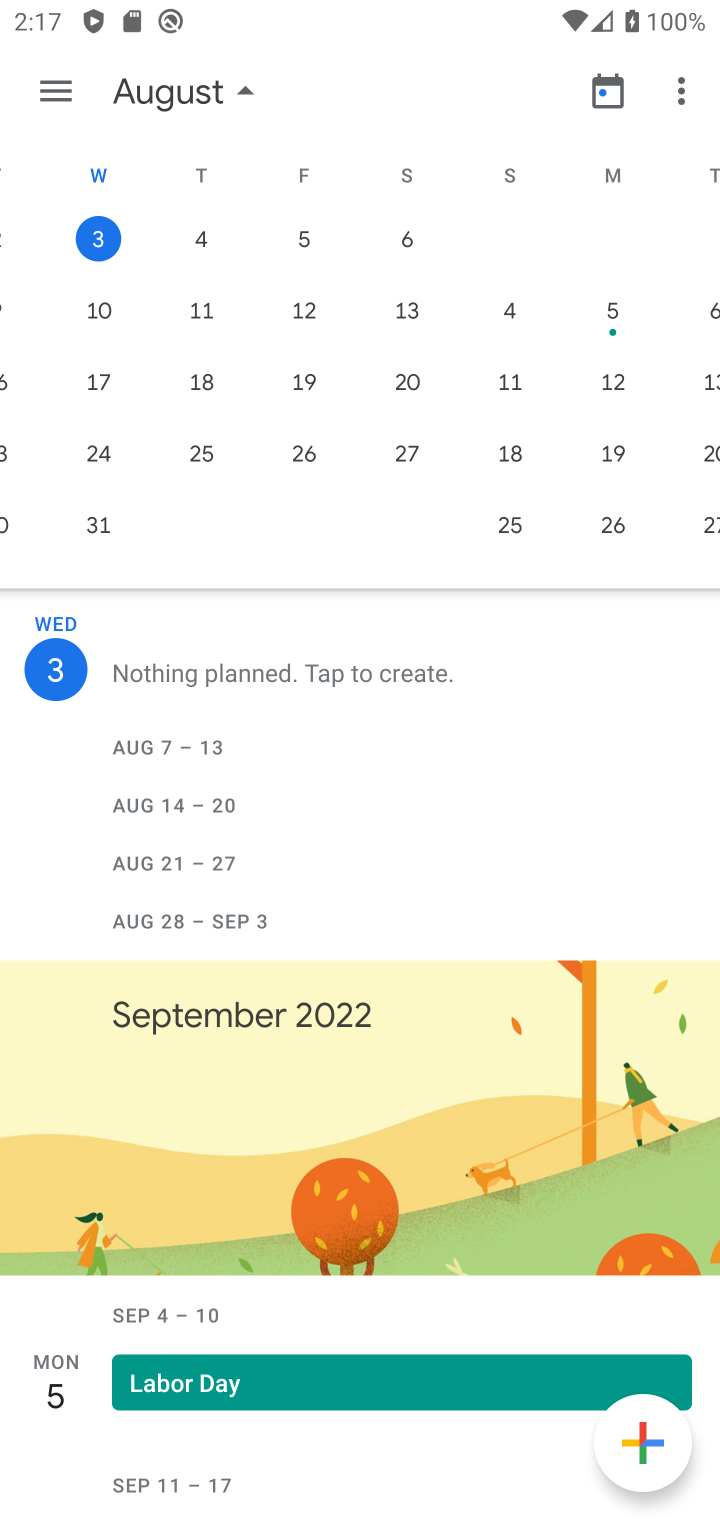
Step 28: drag from (95, 524) to (71, 458)
Your task to perform on an android device: Open calendar and show me the fourth week of next month Image 29: 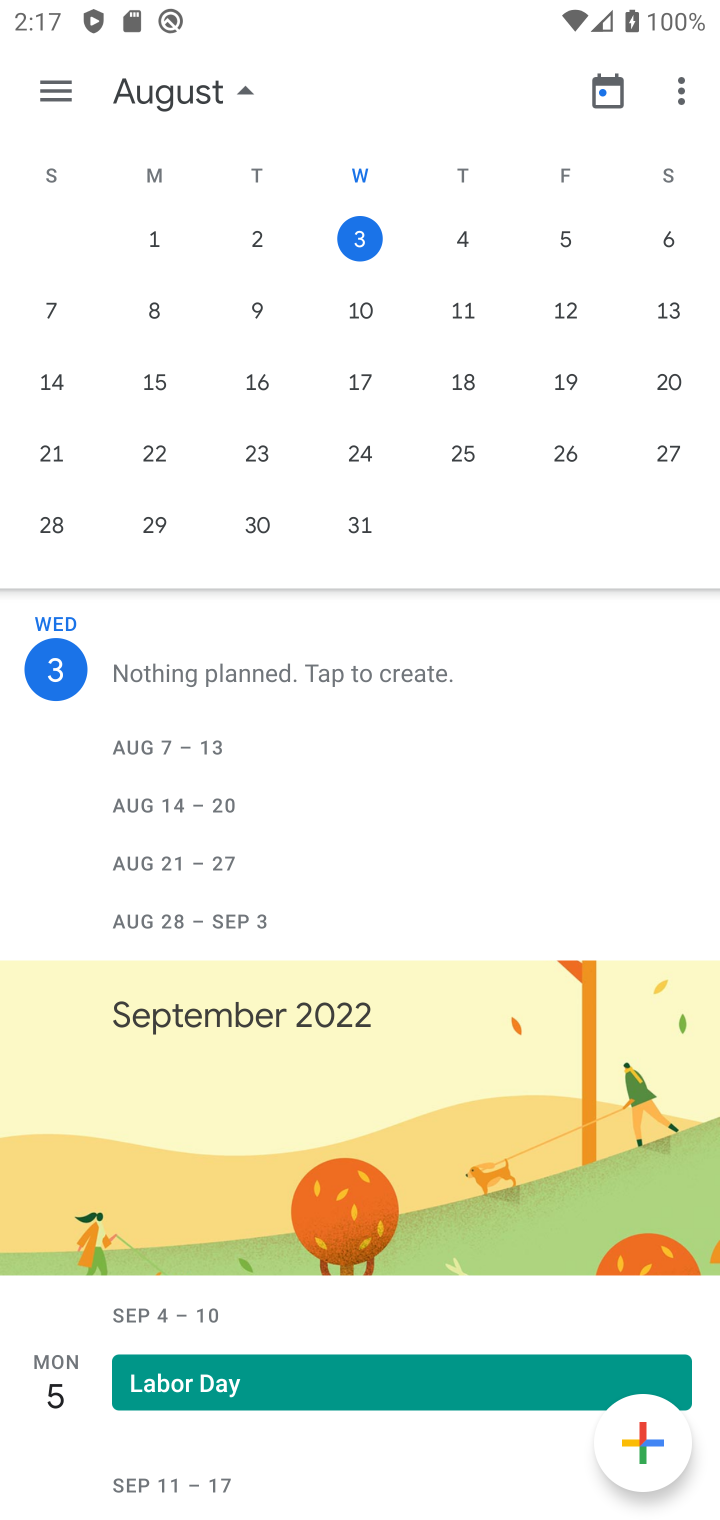
Step 29: drag from (496, 331) to (34, 332)
Your task to perform on an android device: Open calendar and show me the fourth week of next month Image 30: 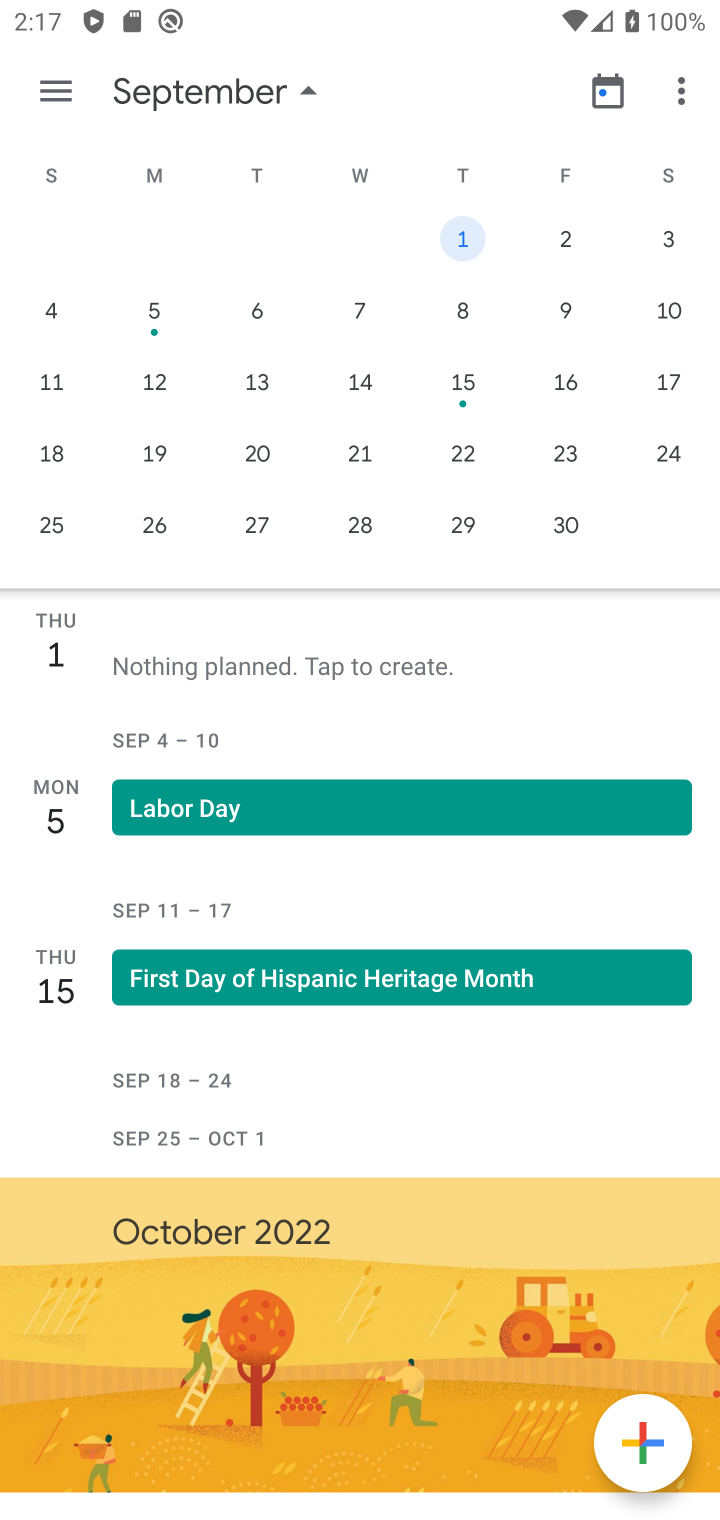
Step 30: click (468, 450)
Your task to perform on an android device: Open calendar and show me the fourth week of next month Image 31: 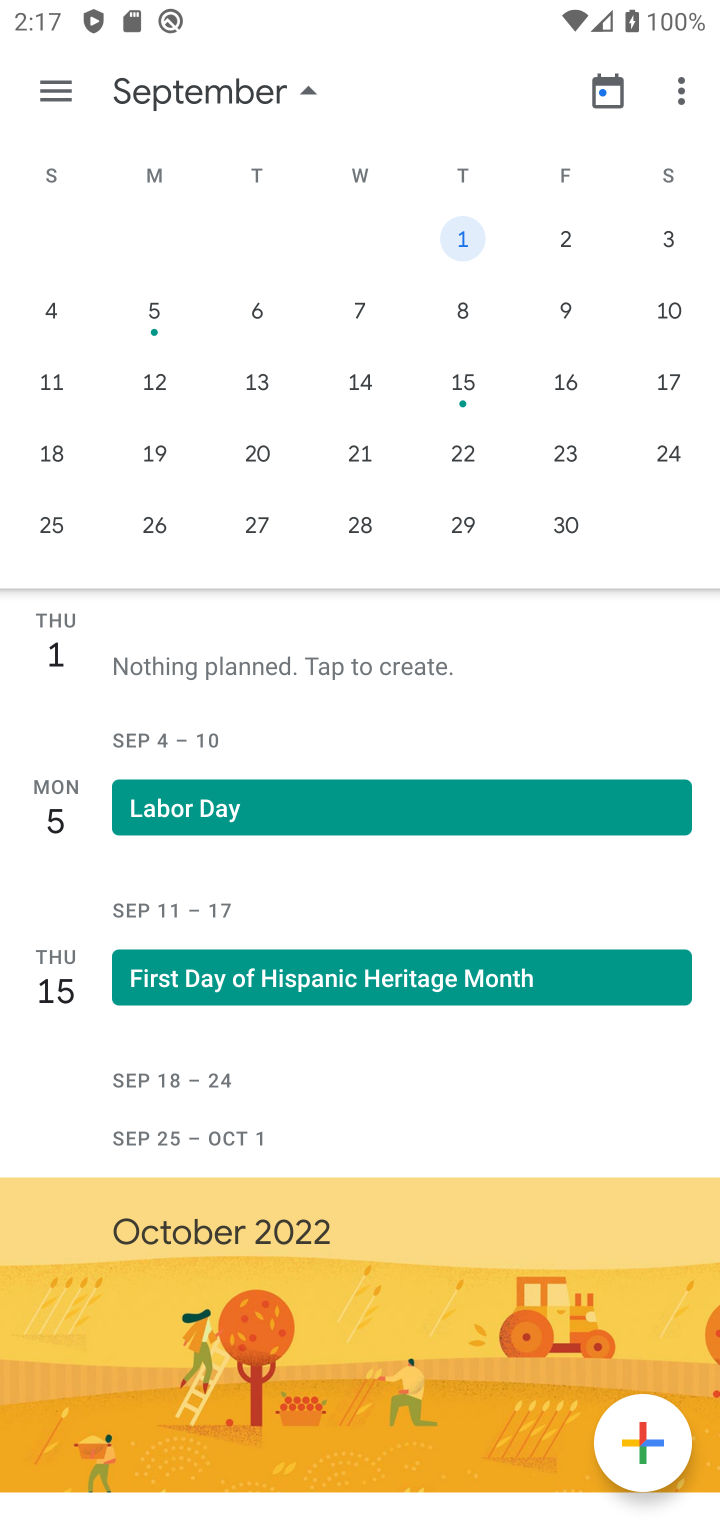
Step 31: click (468, 452)
Your task to perform on an android device: Open calendar and show me the fourth week of next month Image 32: 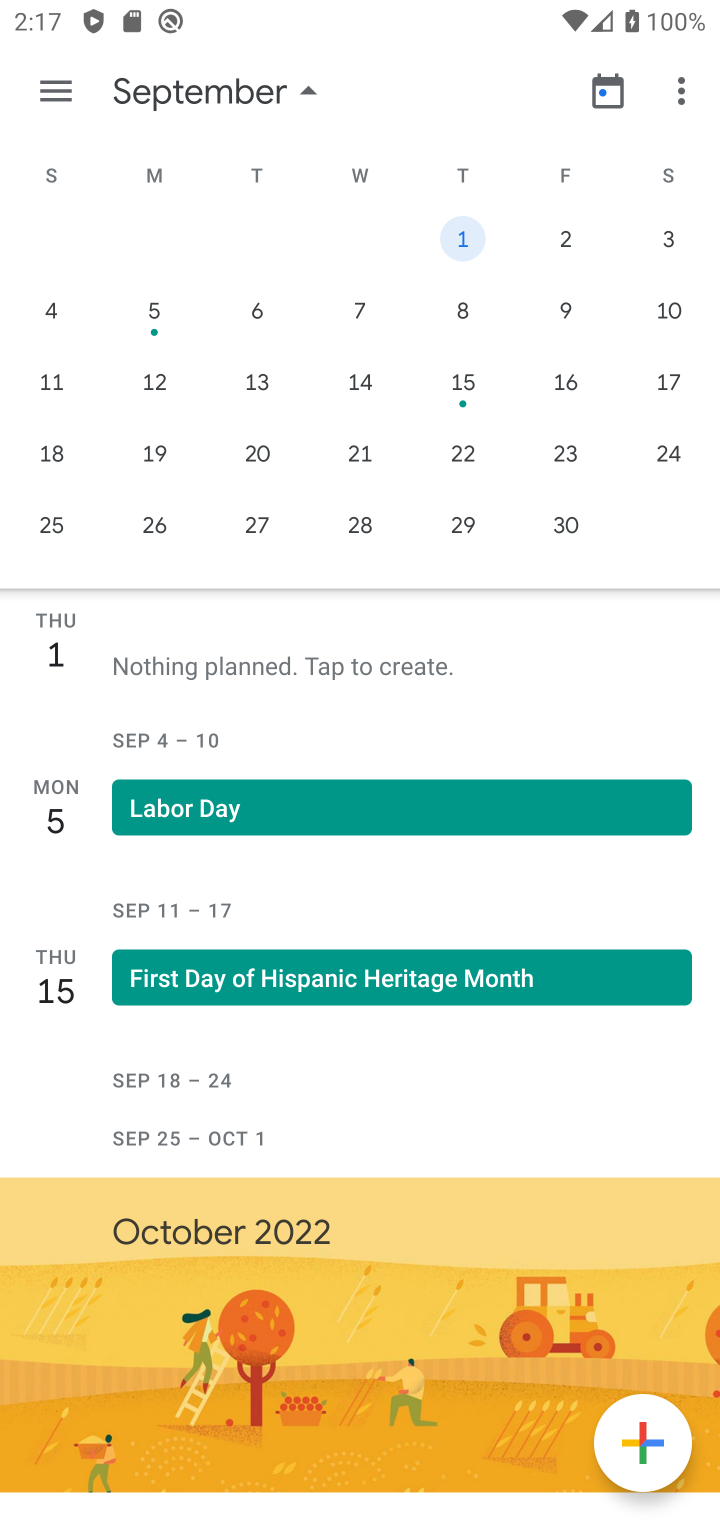
Step 32: click (470, 458)
Your task to perform on an android device: Open calendar and show me the fourth week of next month Image 33: 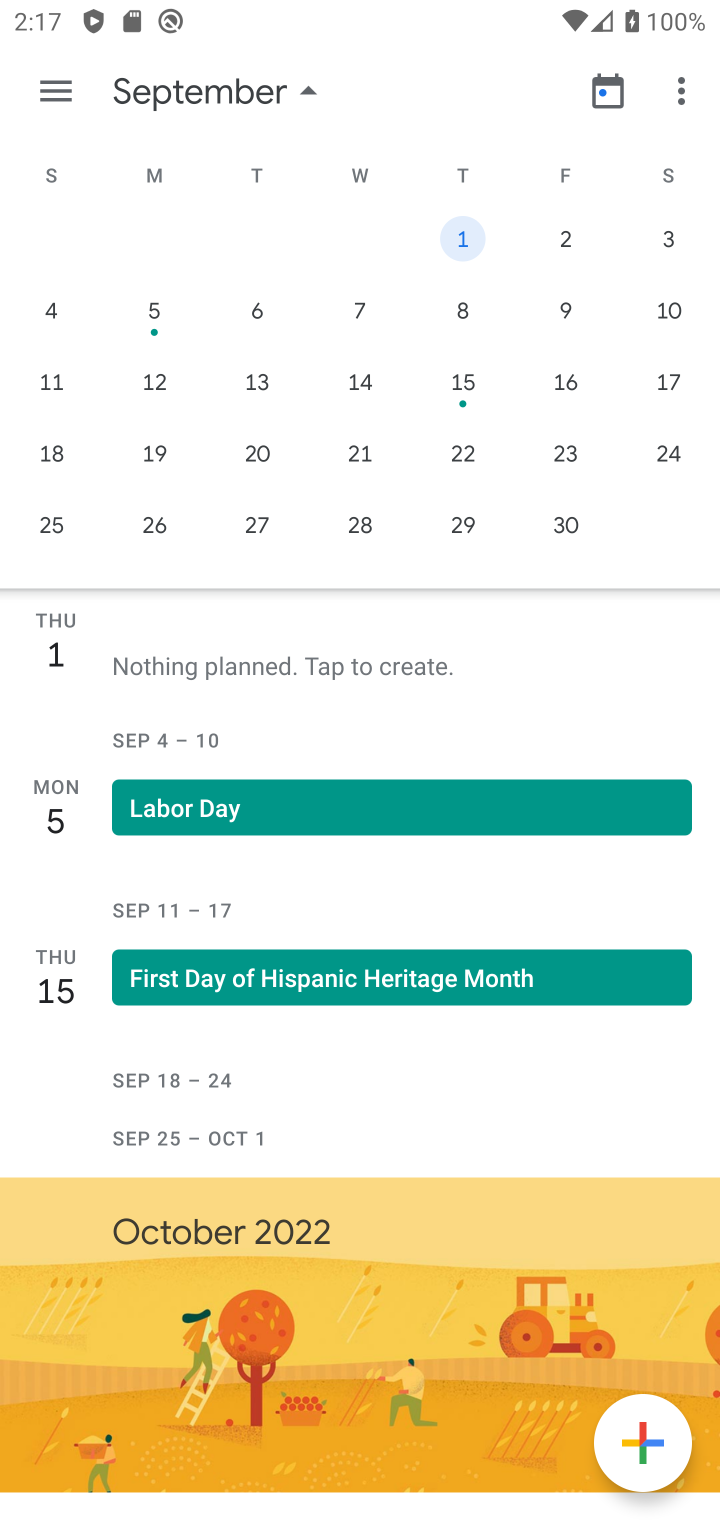
Step 33: click (438, 443)
Your task to perform on an android device: Open calendar and show me the fourth week of next month Image 34: 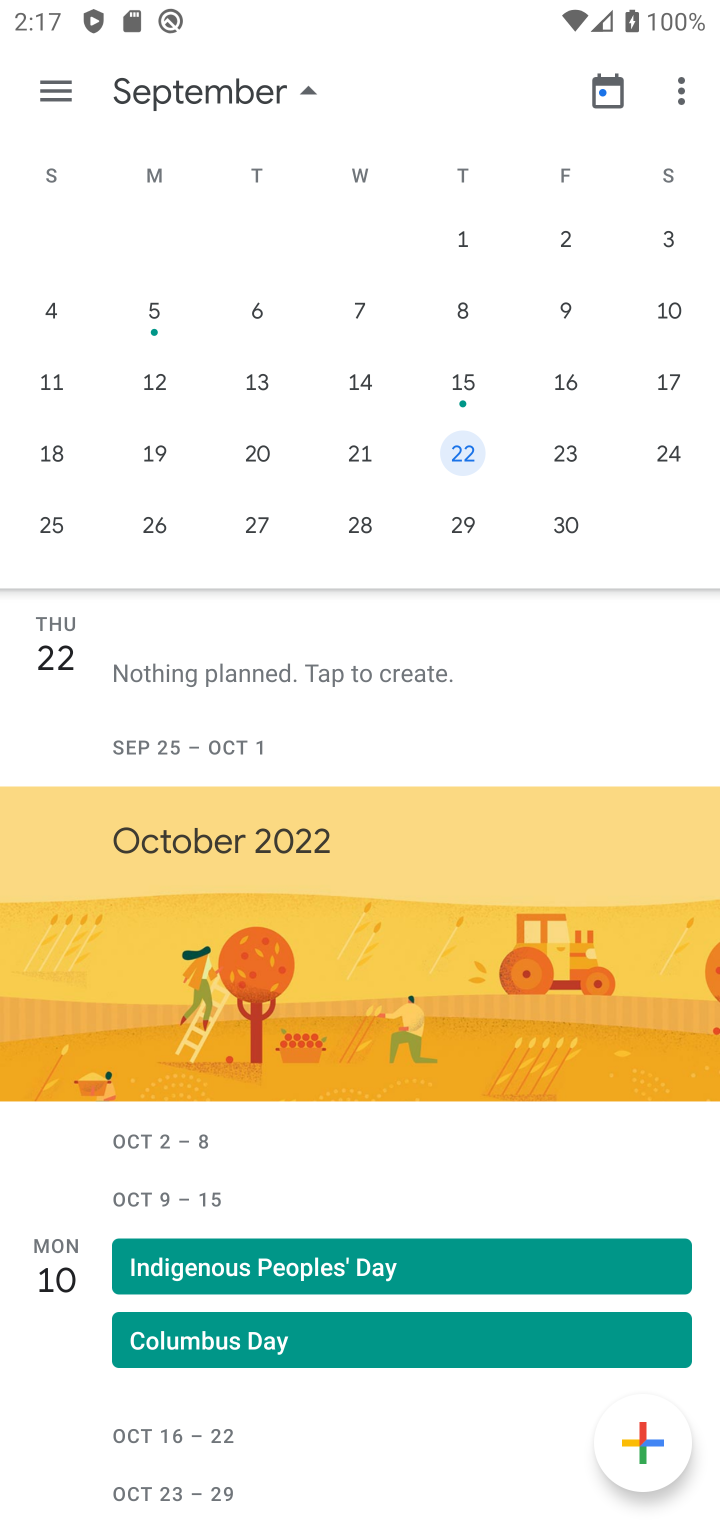
Step 34: task complete